Your task to perform on an android device: Where can I buy a nice beach towel? Image 0: 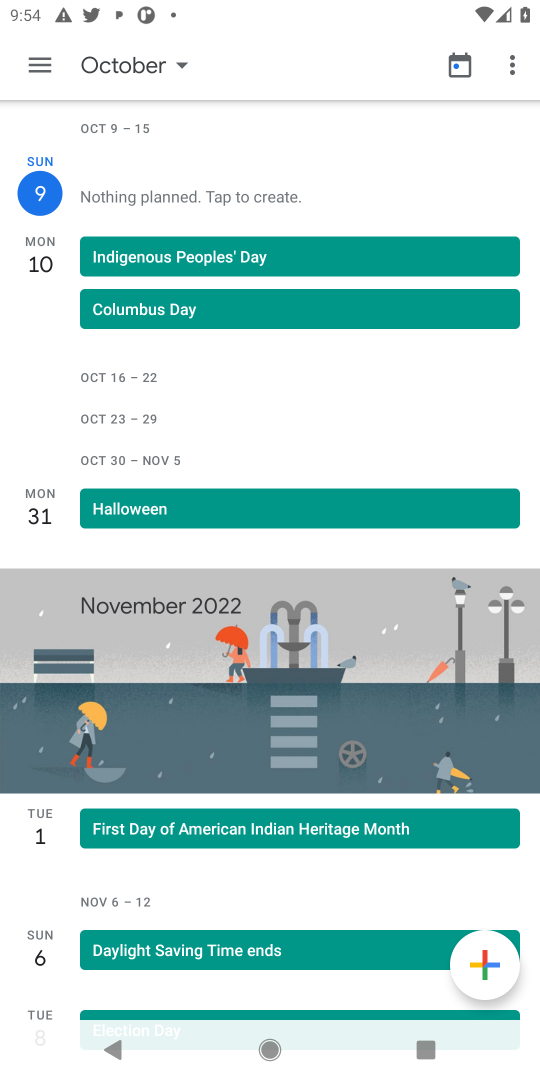
Step 0: press home button
Your task to perform on an android device: Where can I buy a nice beach towel? Image 1: 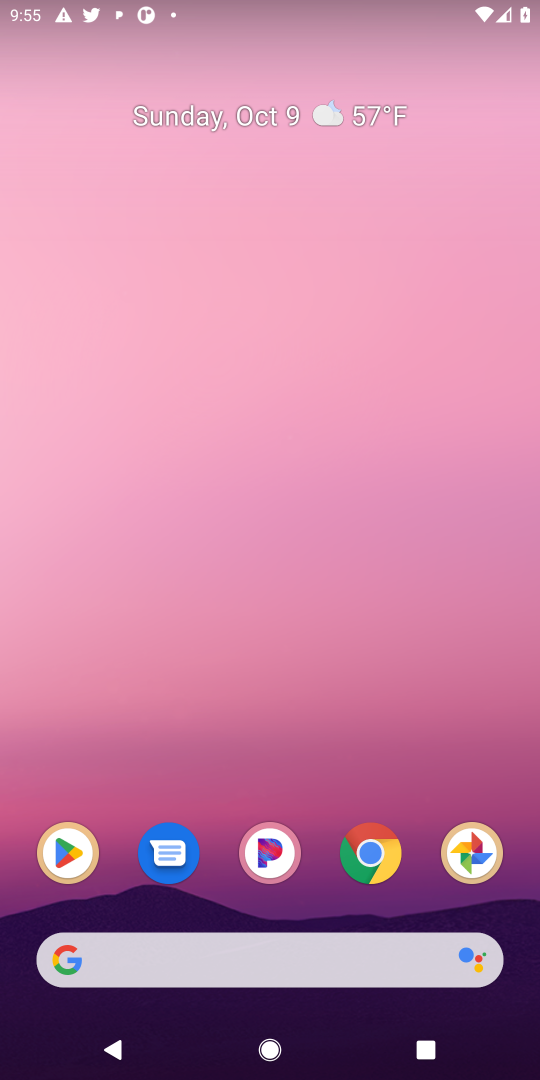
Step 1: type "Where can I buy a nice beach towel?"
Your task to perform on an android device: Where can I buy a nice beach towel? Image 2: 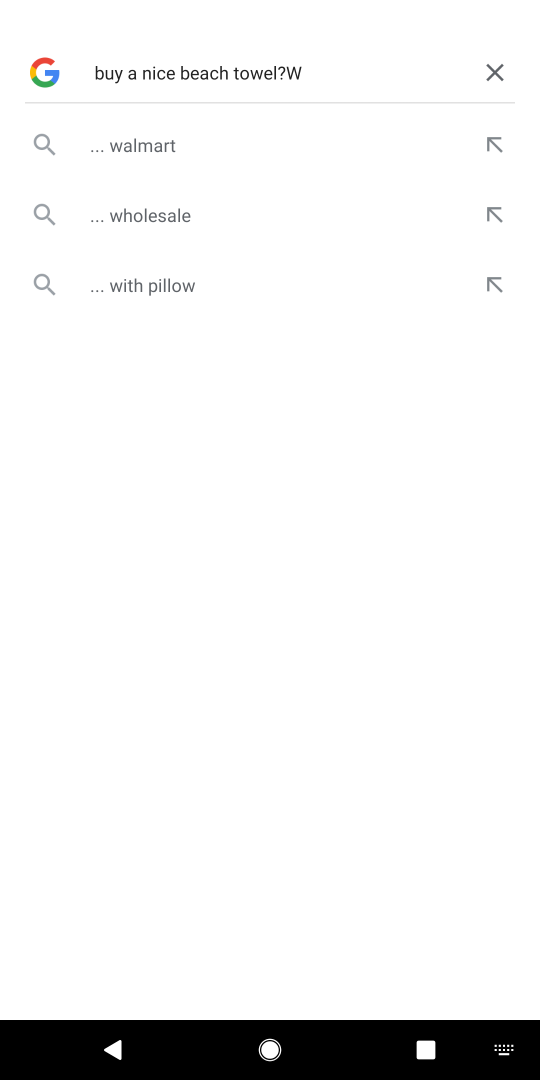
Step 2: type ""
Your task to perform on an android device: Where can I buy a nice beach towel? Image 3: 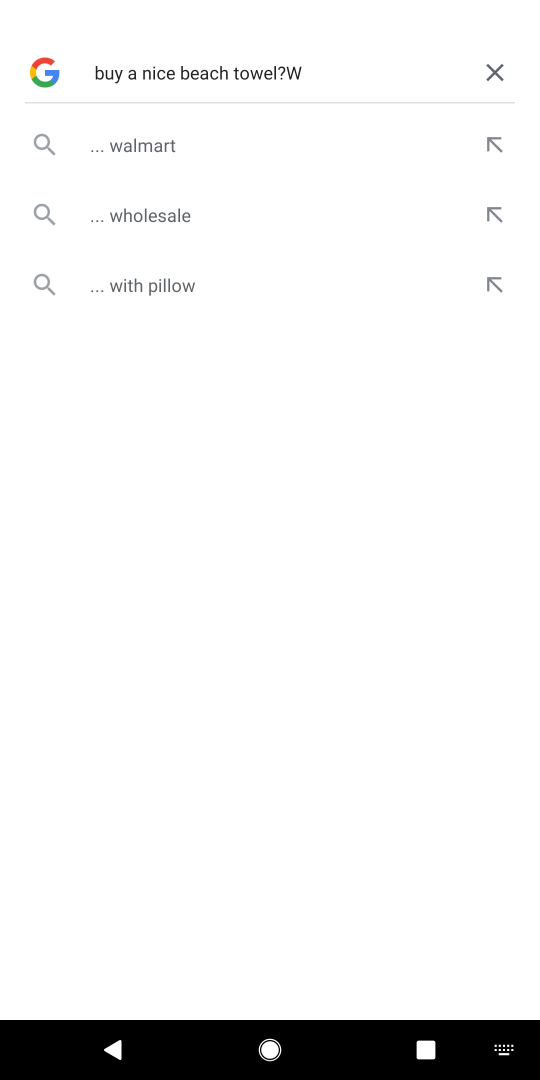
Step 3: press enter
Your task to perform on an android device: Where can I buy a nice beach towel? Image 4: 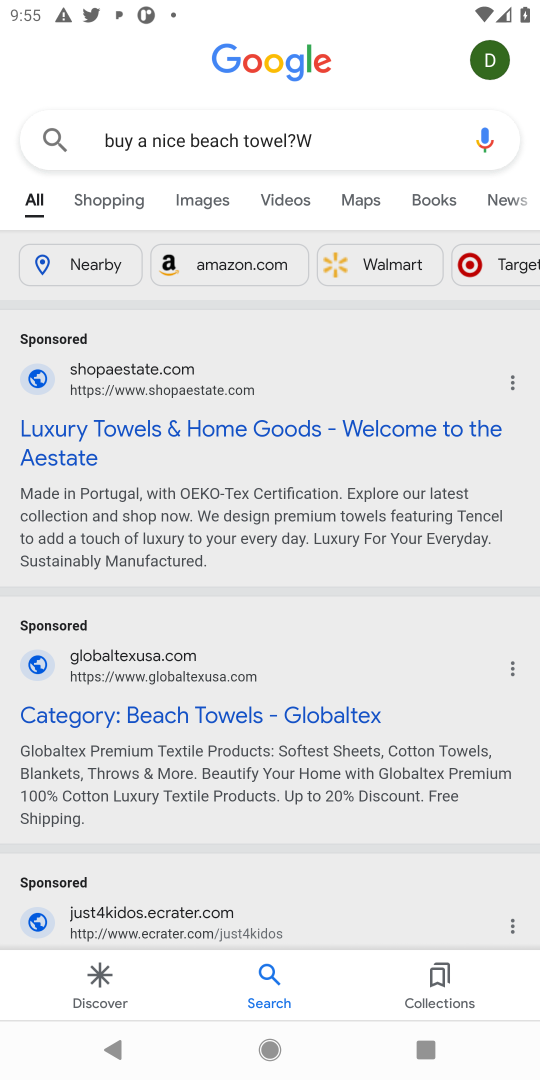
Step 4: drag from (235, 831) to (269, 295)
Your task to perform on an android device: Where can I buy a nice beach towel? Image 5: 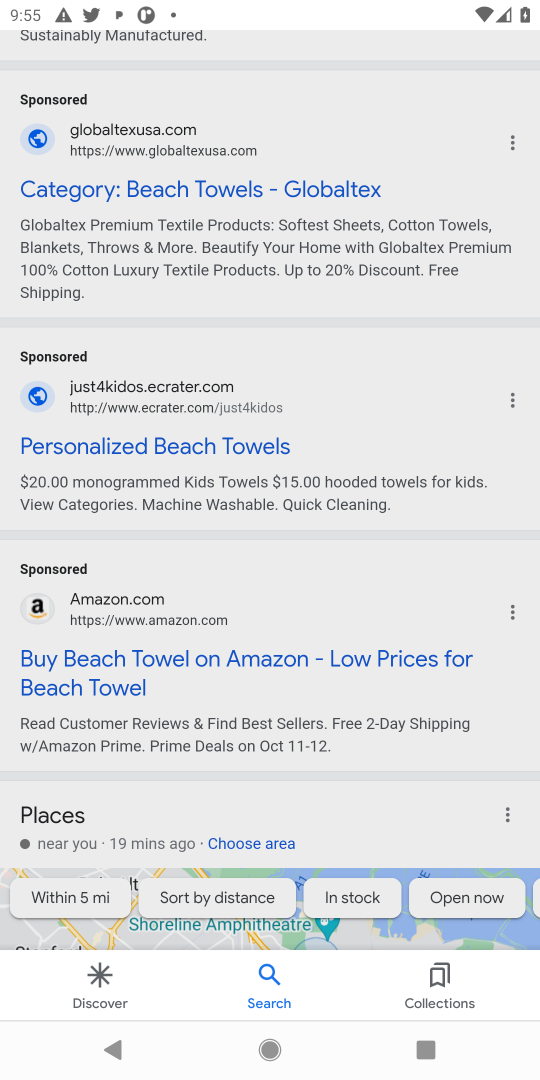
Step 5: drag from (363, 713) to (359, 267)
Your task to perform on an android device: Where can I buy a nice beach towel? Image 6: 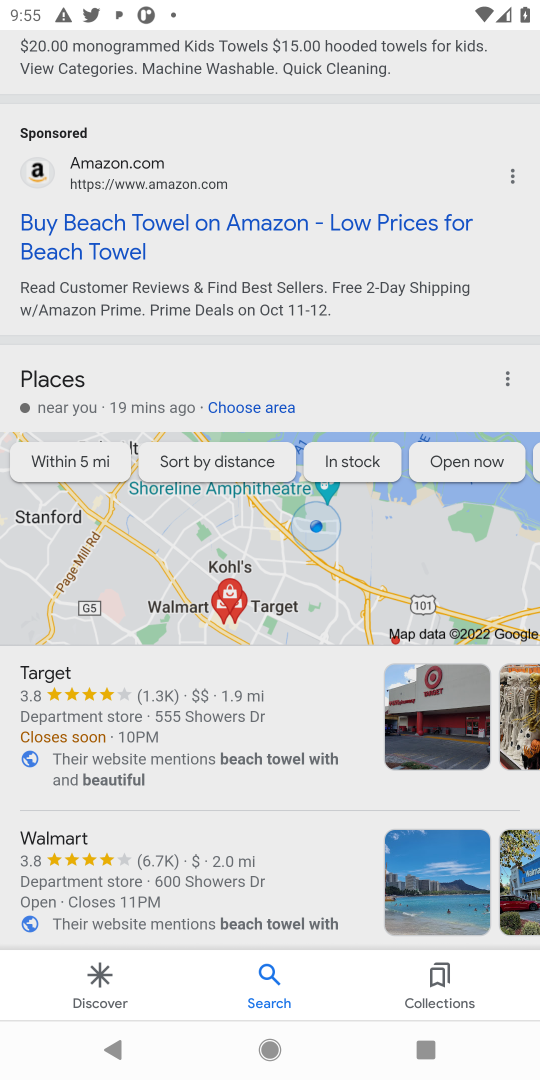
Step 6: type "Where can I buy a nice beach towel?"
Your task to perform on an android device: Where can I buy a nice beach towel? Image 7: 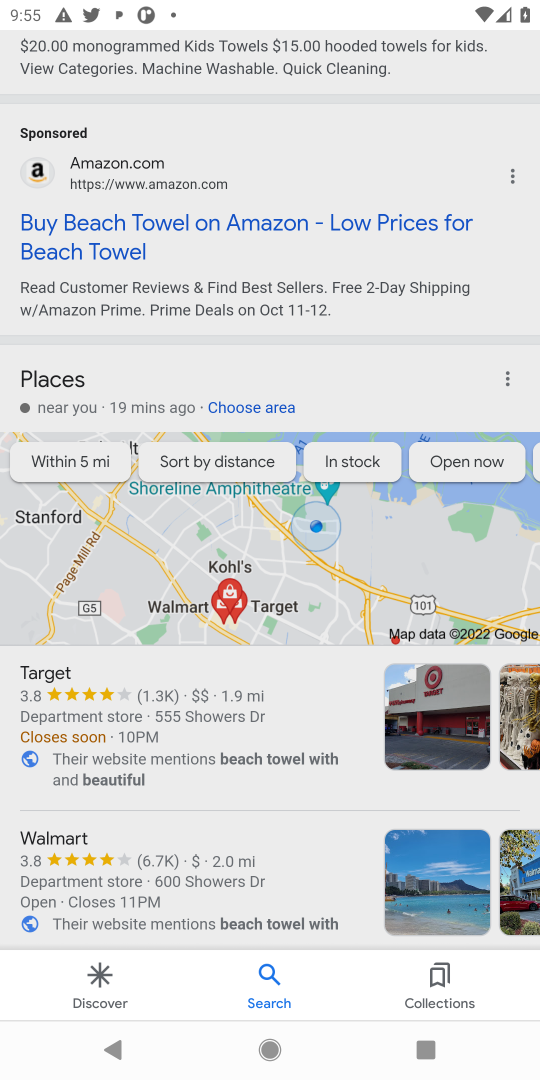
Step 7: drag from (332, 847) to (409, 741)
Your task to perform on an android device: Where can I buy a nice beach towel? Image 8: 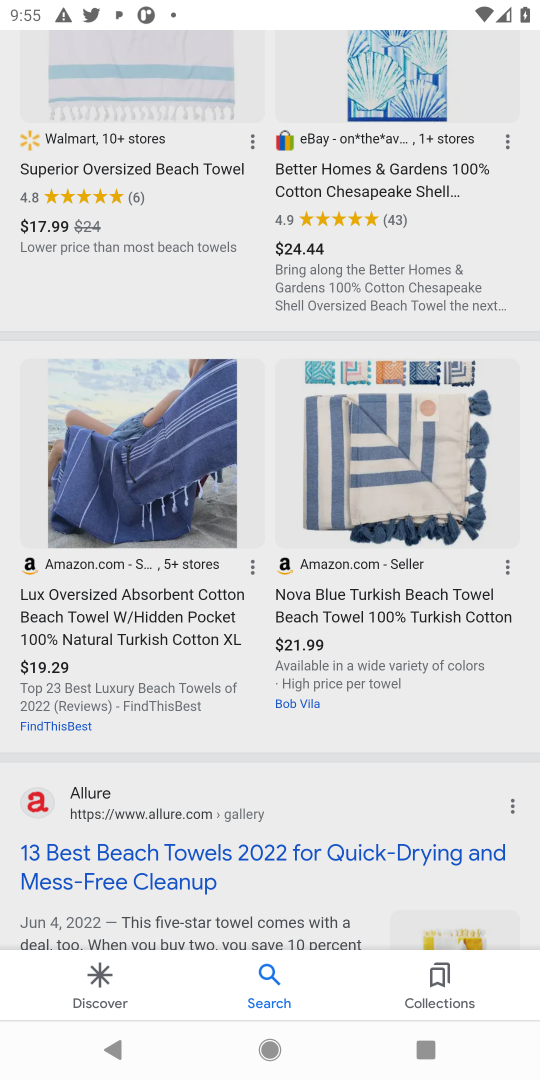
Step 8: drag from (433, 110) to (450, 700)
Your task to perform on an android device: Where can I buy a nice beach towel? Image 9: 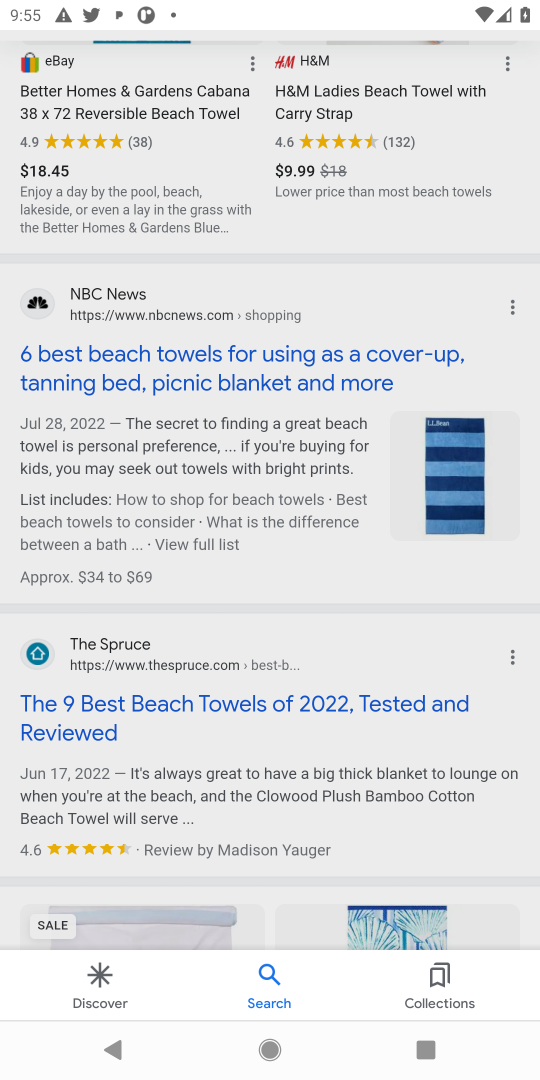
Step 9: drag from (248, 181) to (239, 811)
Your task to perform on an android device: Where can I buy a nice beach towel? Image 10: 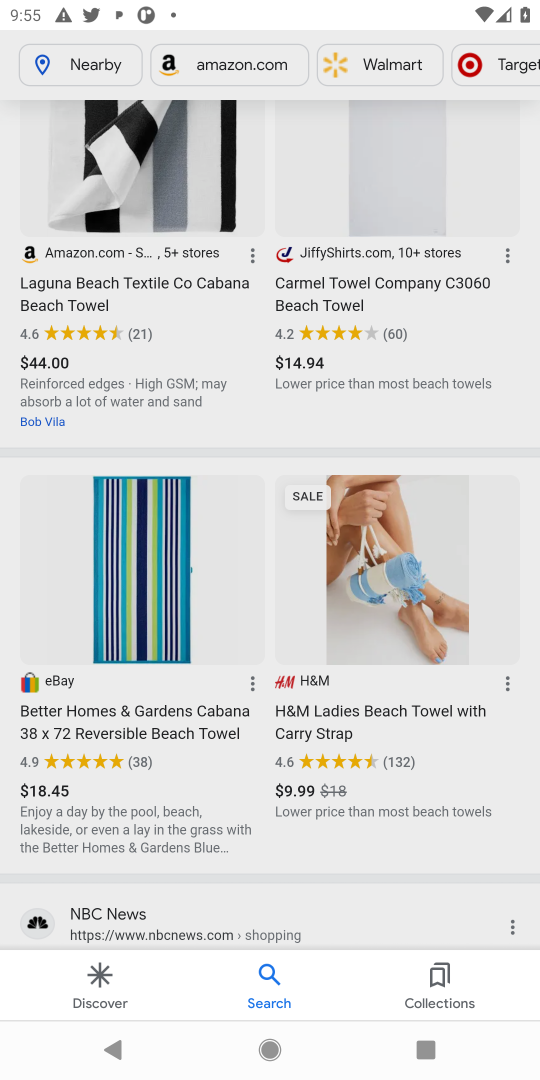
Step 10: drag from (214, 377) to (208, 823)
Your task to perform on an android device: Where can I buy a nice beach towel? Image 11: 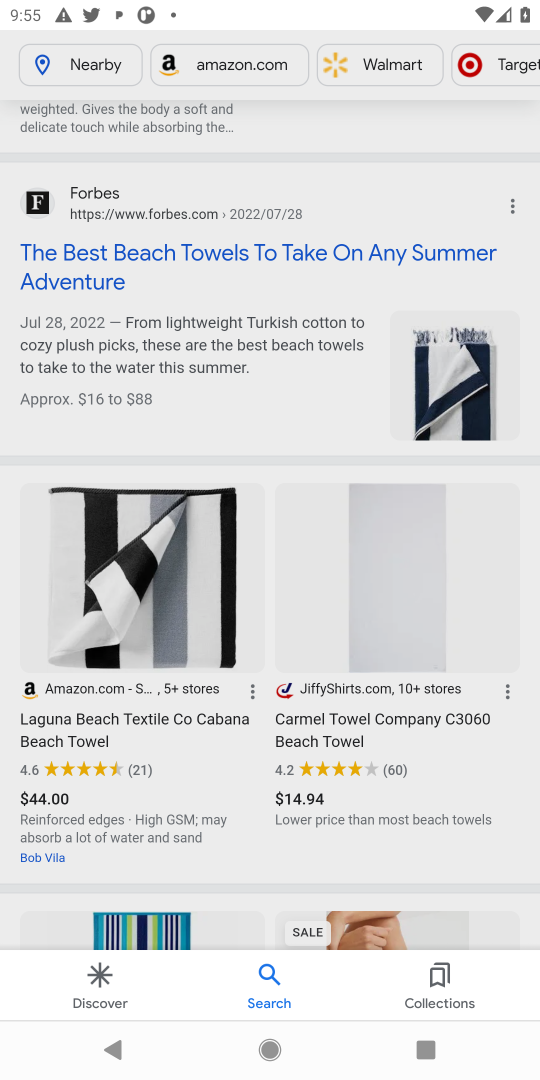
Step 11: drag from (137, 226) to (140, 824)
Your task to perform on an android device: Where can I buy a nice beach towel? Image 12: 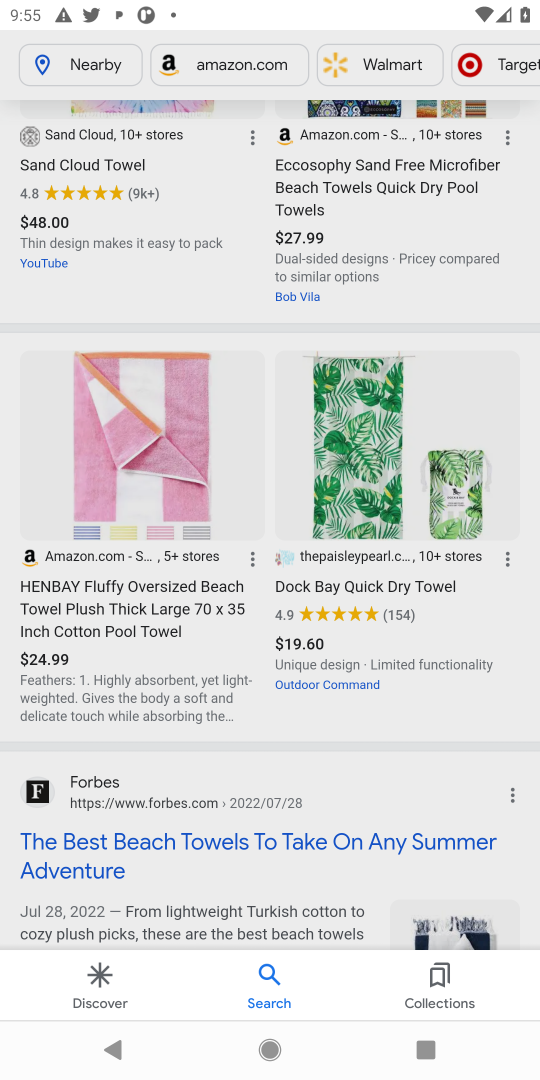
Step 12: drag from (102, 232) to (81, 593)
Your task to perform on an android device: Where can I buy a nice beach towel? Image 13: 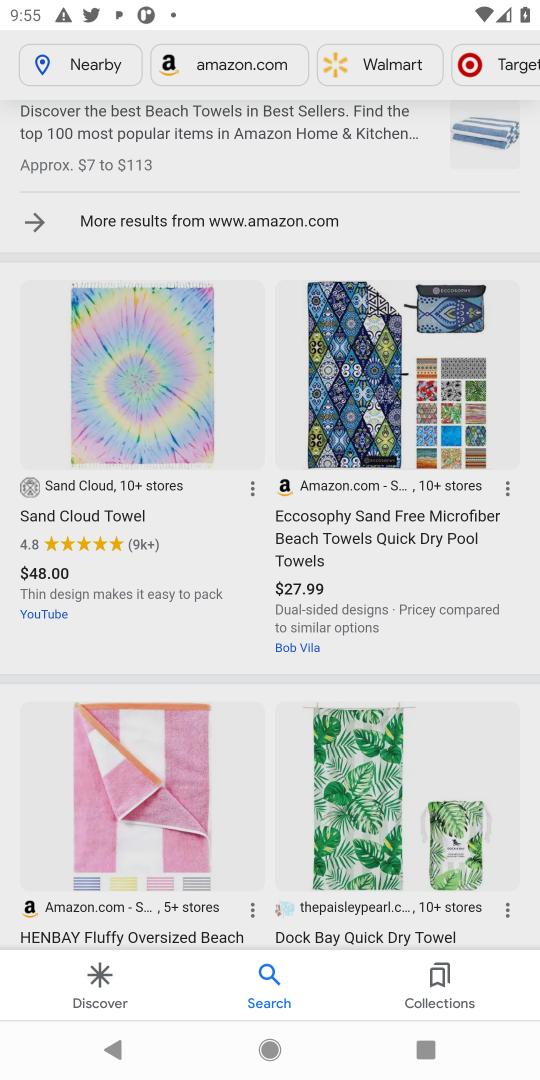
Step 13: drag from (93, 334) to (134, 718)
Your task to perform on an android device: Where can I buy a nice beach towel? Image 14: 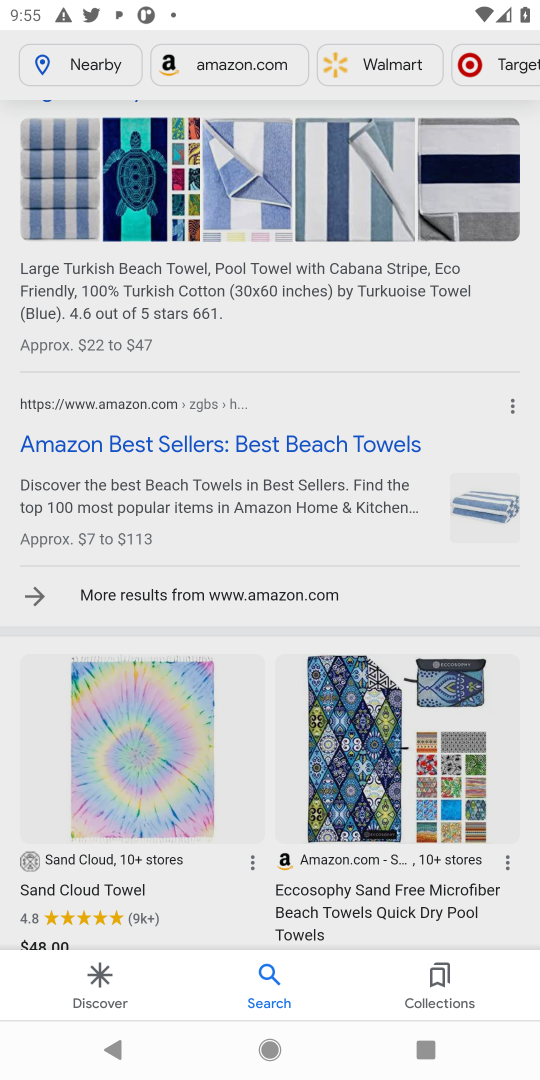
Step 14: click (111, 440)
Your task to perform on an android device: Where can I buy a nice beach towel? Image 15: 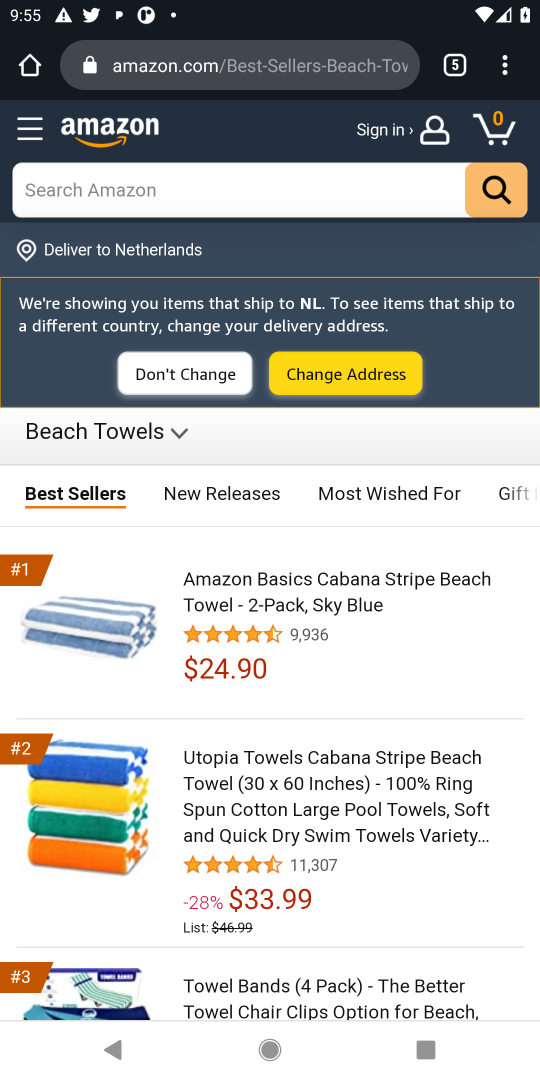
Step 15: drag from (295, 639) to (328, 257)
Your task to perform on an android device: Where can I buy a nice beach towel? Image 16: 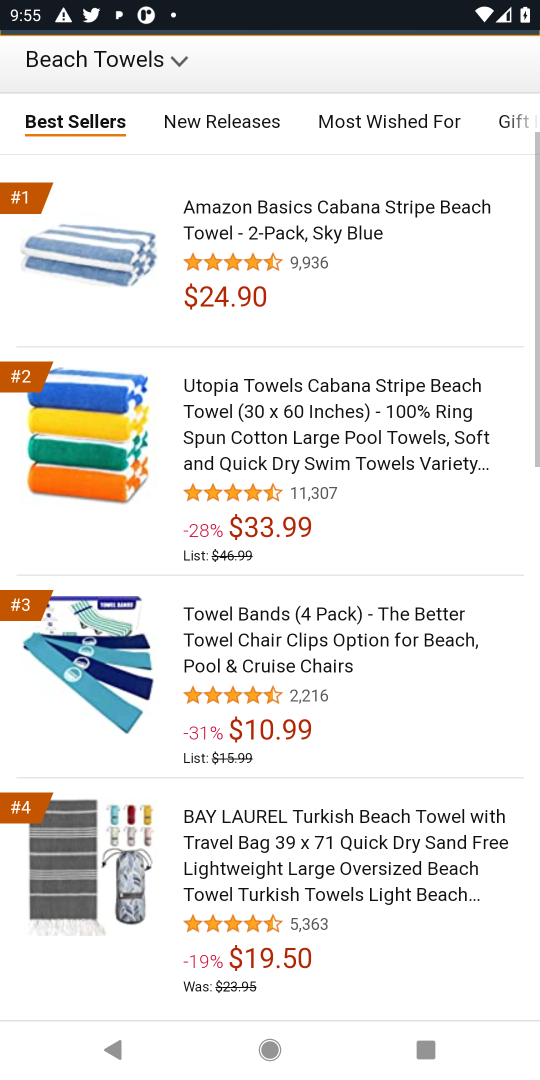
Step 16: drag from (328, 251) to (320, 677)
Your task to perform on an android device: Where can I buy a nice beach towel? Image 17: 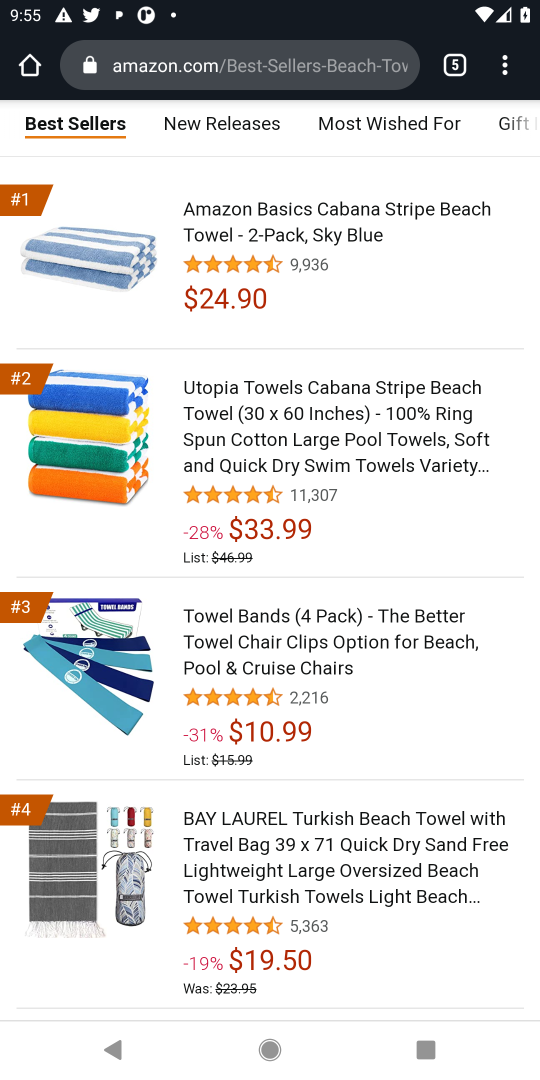
Step 17: drag from (306, 761) to (282, 267)
Your task to perform on an android device: Where can I buy a nice beach towel? Image 18: 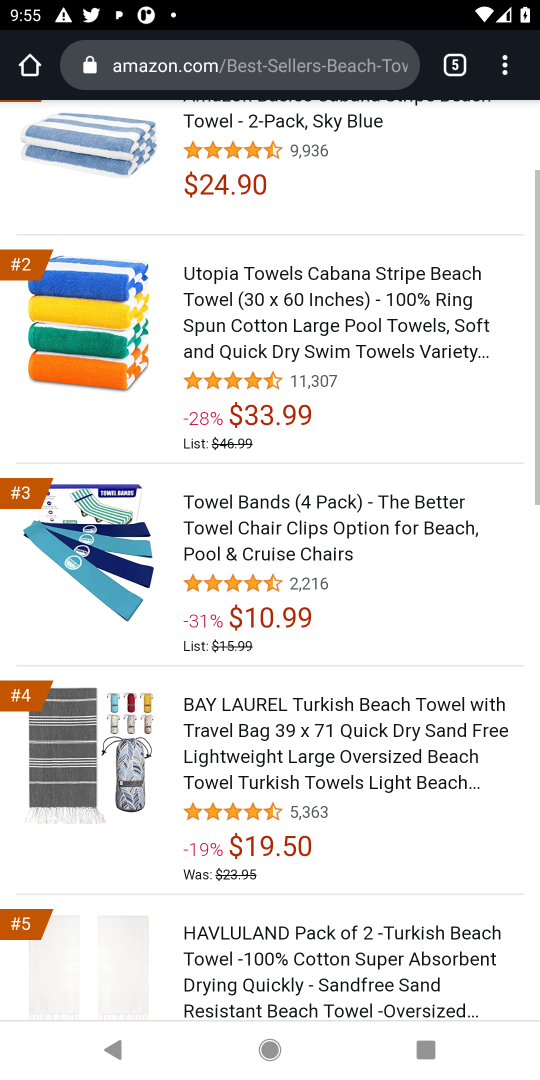
Step 18: drag from (291, 875) to (300, 460)
Your task to perform on an android device: Where can I buy a nice beach towel? Image 19: 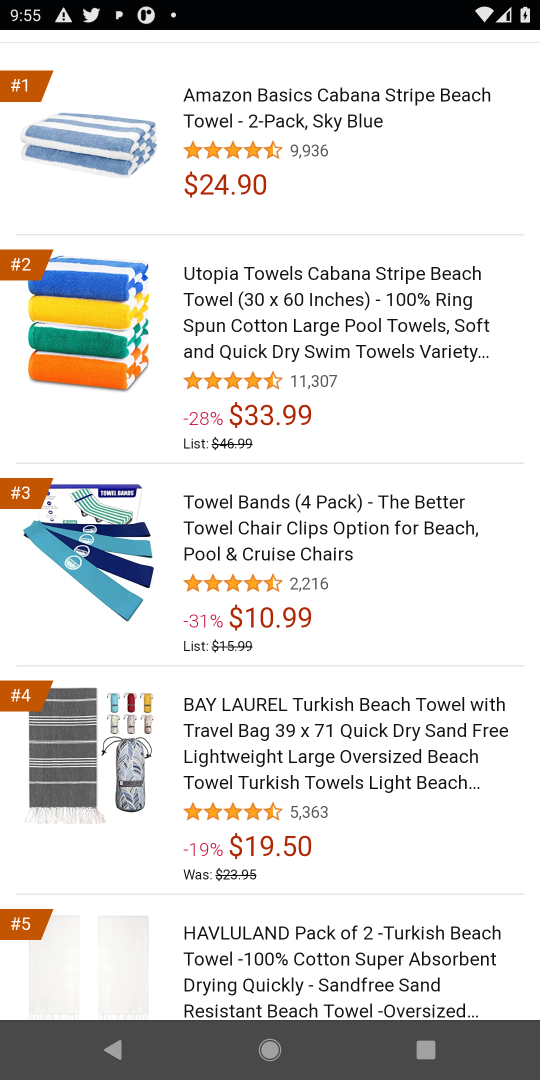
Step 19: drag from (350, 886) to (324, 290)
Your task to perform on an android device: Where can I buy a nice beach towel? Image 20: 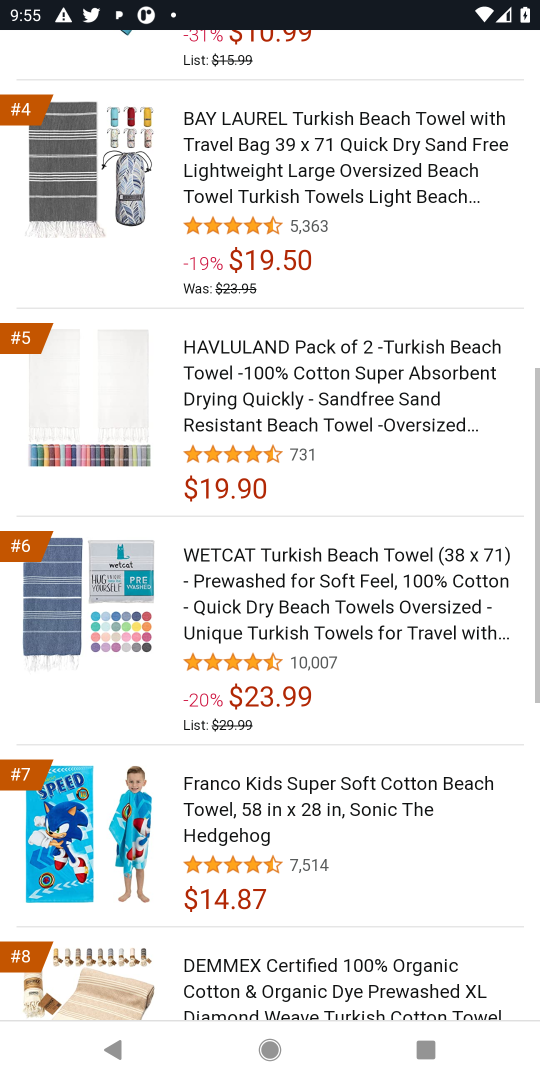
Step 20: drag from (285, 896) to (261, 439)
Your task to perform on an android device: Where can I buy a nice beach towel? Image 21: 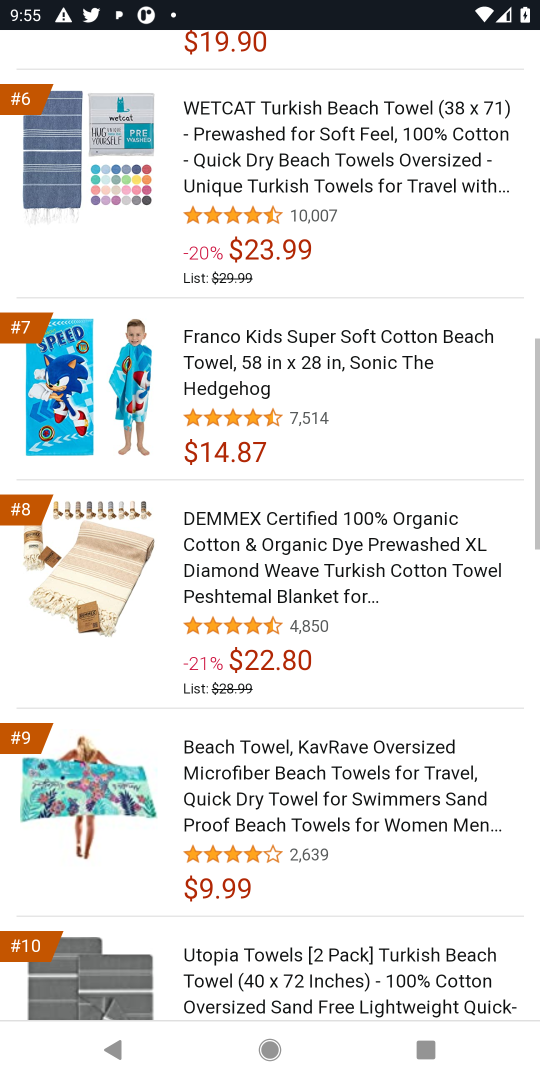
Step 21: drag from (302, 888) to (274, 360)
Your task to perform on an android device: Where can I buy a nice beach towel? Image 22: 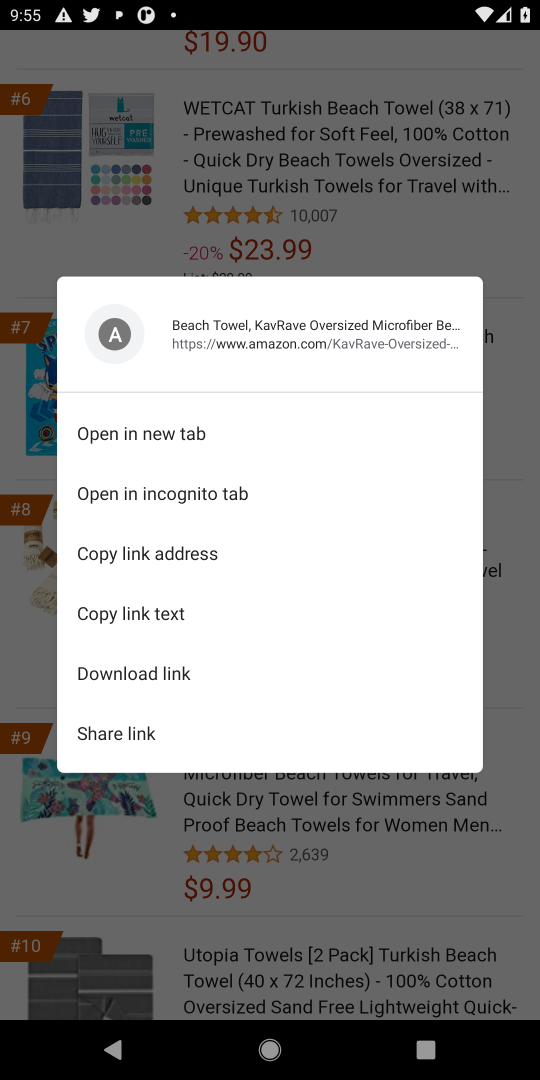
Step 22: click (295, 904)
Your task to perform on an android device: Where can I buy a nice beach towel? Image 23: 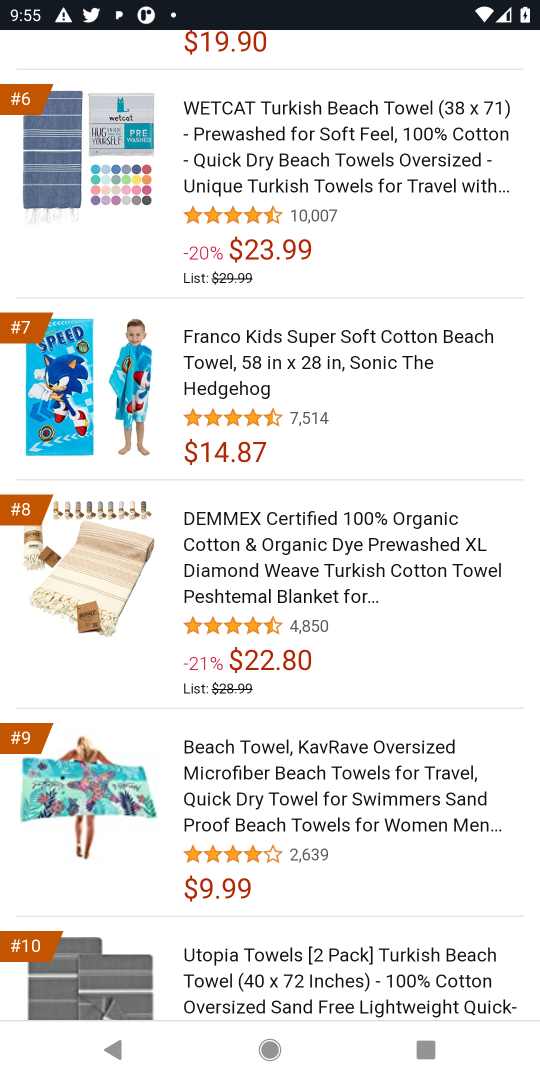
Step 23: drag from (292, 895) to (345, 268)
Your task to perform on an android device: Where can I buy a nice beach towel? Image 24: 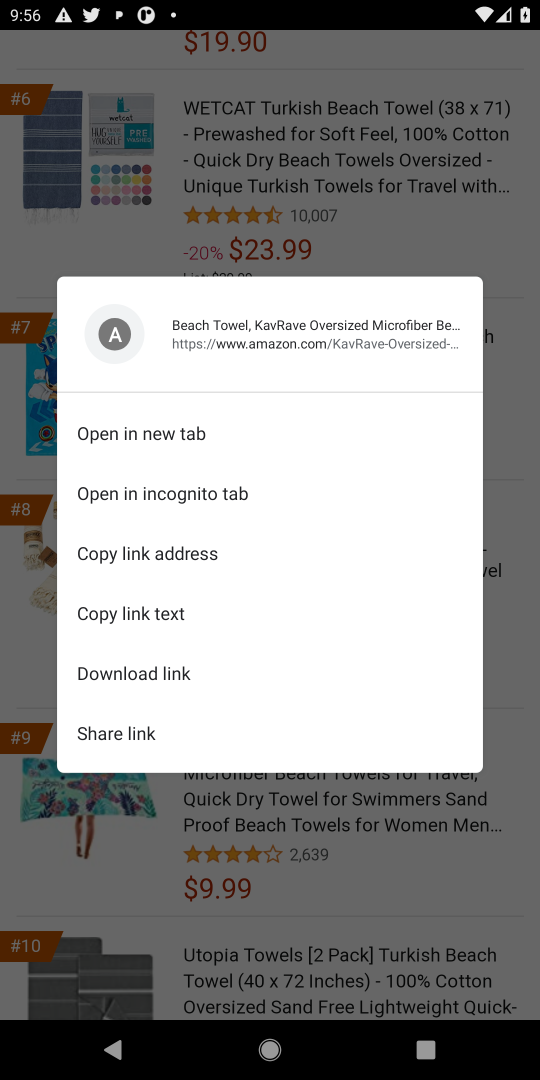
Step 24: press back button
Your task to perform on an android device: Where can I buy a nice beach towel? Image 25: 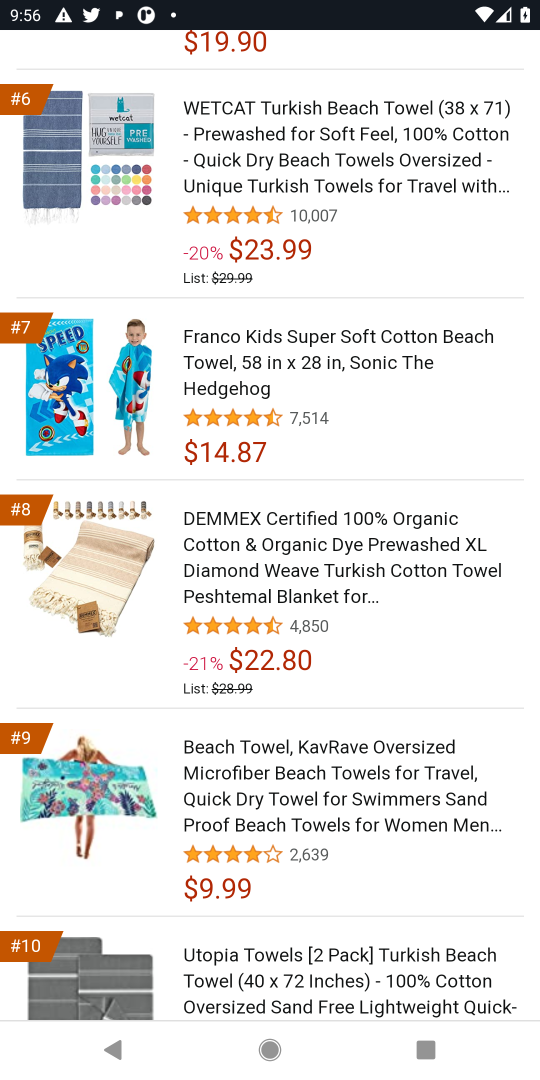
Step 25: press back button
Your task to perform on an android device: Where can I buy a nice beach towel? Image 26: 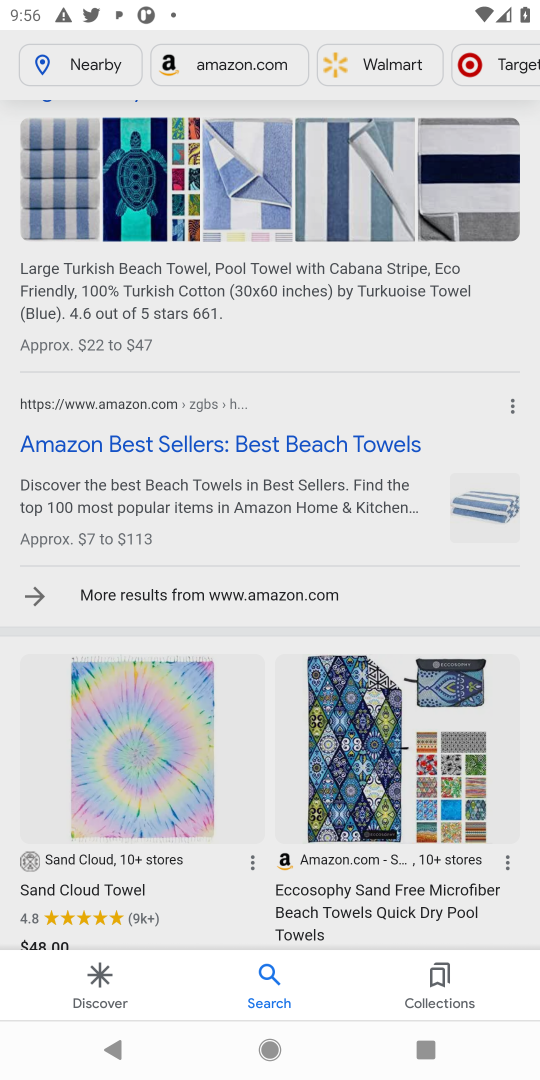
Step 26: drag from (280, 258) to (347, 731)
Your task to perform on an android device: Where can I buy a nice beach towel? Image 27: 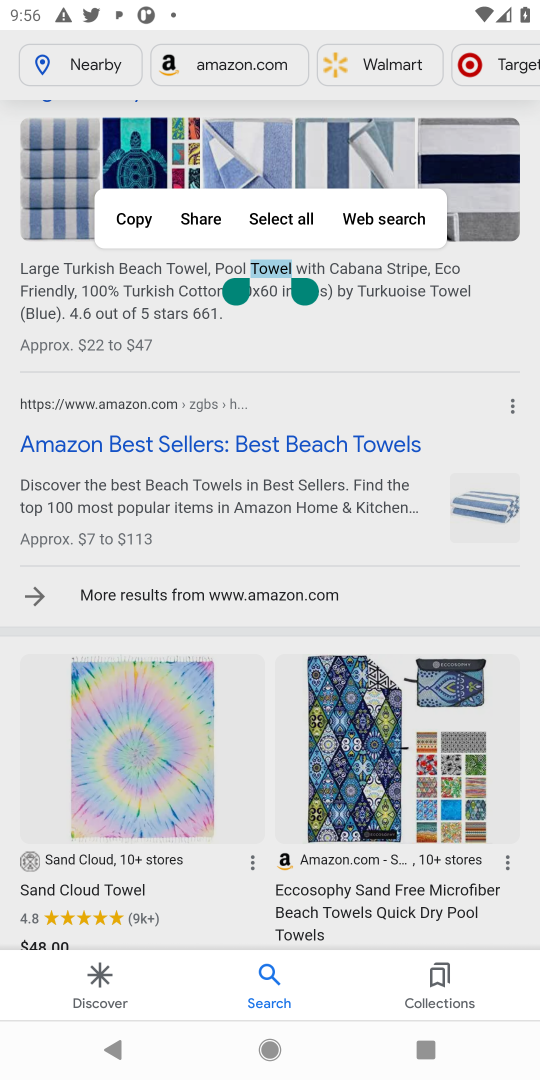
Step 27: click (411, 482)
Your task to perform on an android device: Where can I buy a nice beach towel? Image 28: 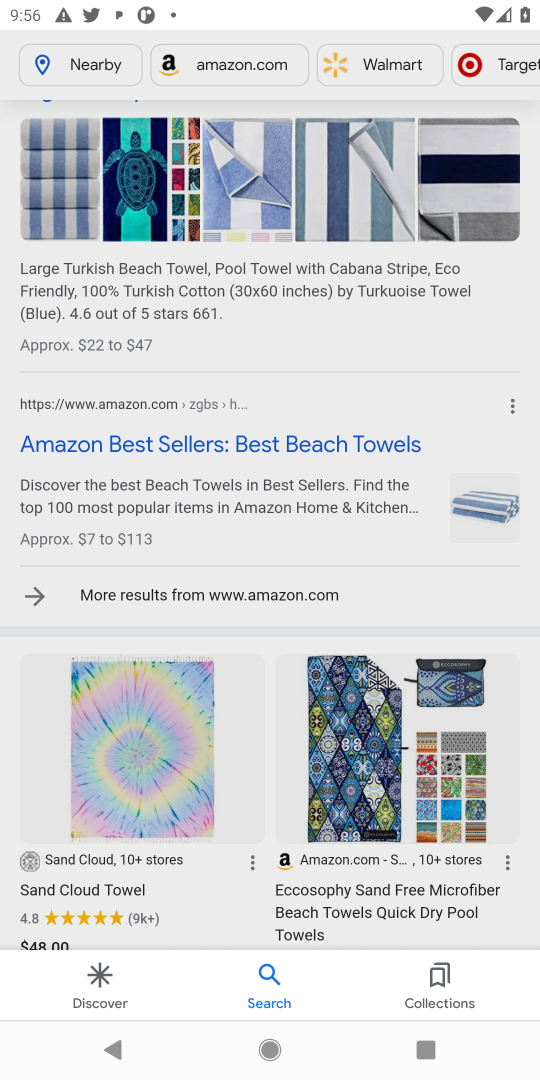
Step 28: drag from (465, 206) to (408, 292)
Your task to perform on an android device: Where can I buy a nice beach towel? Image 29: 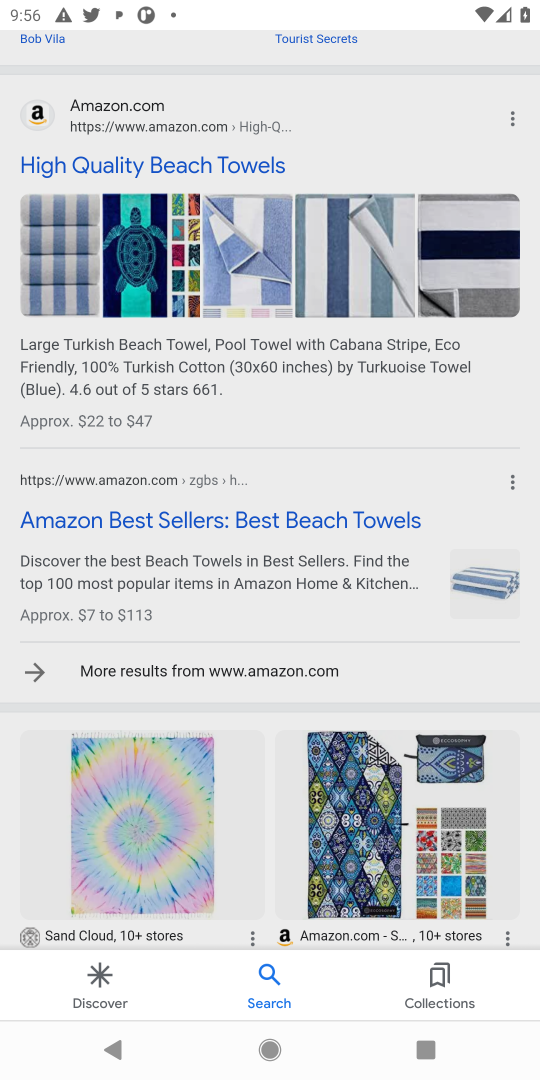
Step 29: drag from (336, 812) to (354, 192)
Your task to perform on an android device: Where can I buy a nice beach towel? Image 30: 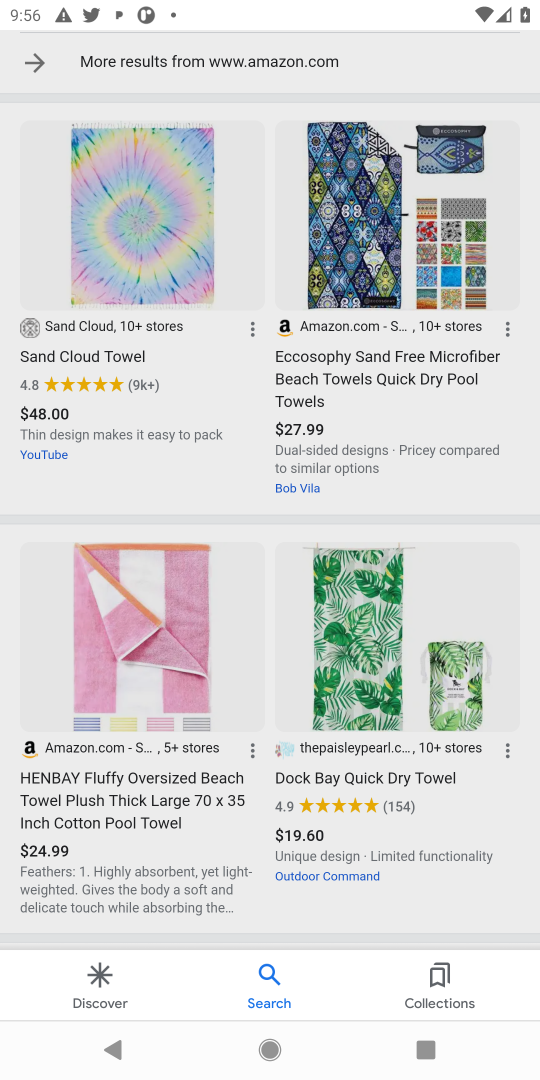
Step 30: drag from (292, 819) to (330, 280)
Your task to perform on an android device: Where can I buy a nice beach towel? Image 31: 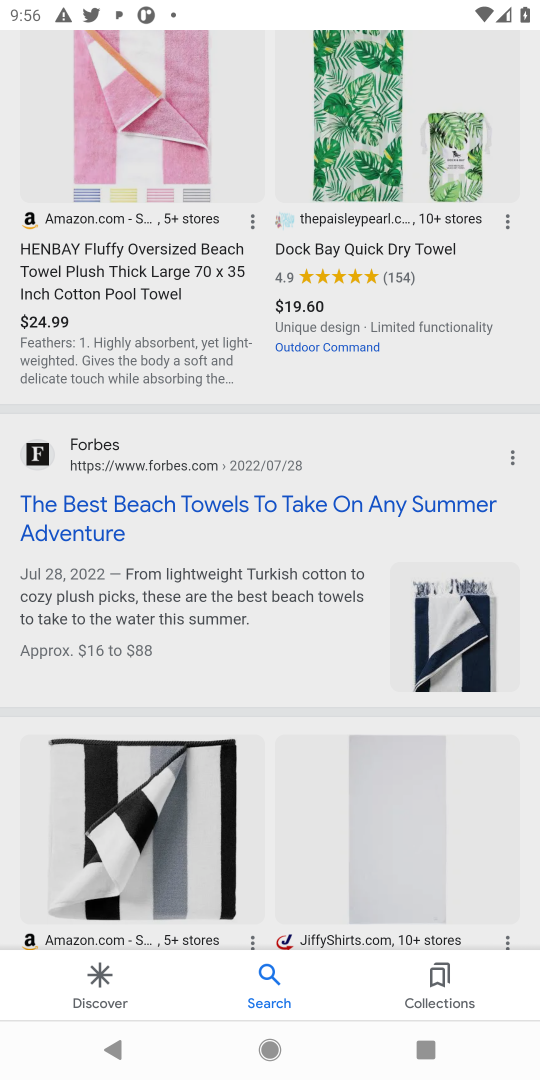
Step 31: drag from (306, 727) to (306, 332)
Your task to perform on an android device: Where can I buy a nice beach towel? Image 32: 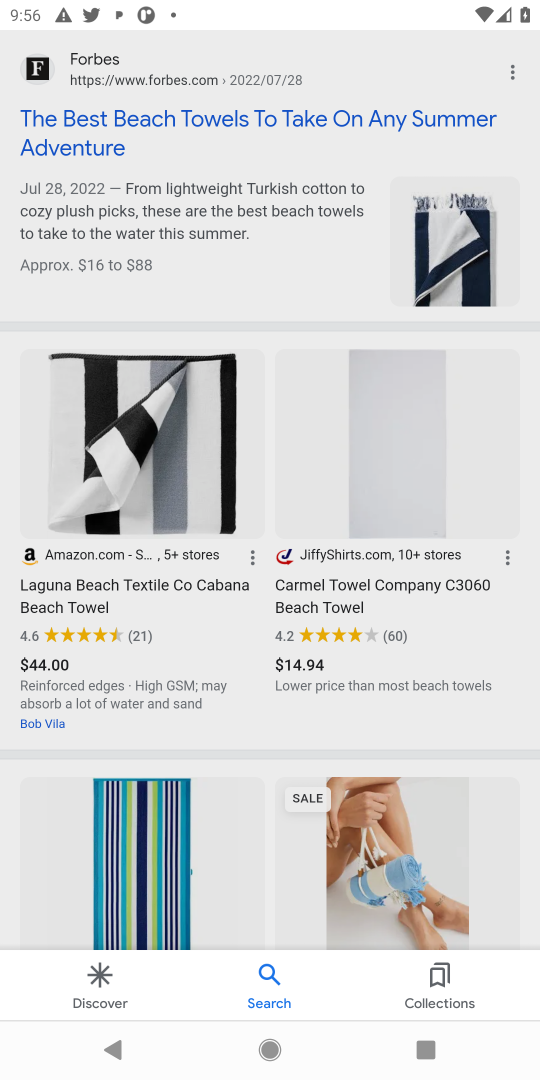
Step 32: drag from (268, 848) to (283, 218)
Your task to perform on an android device: Where can I buy a nice beach towel? Image 33: 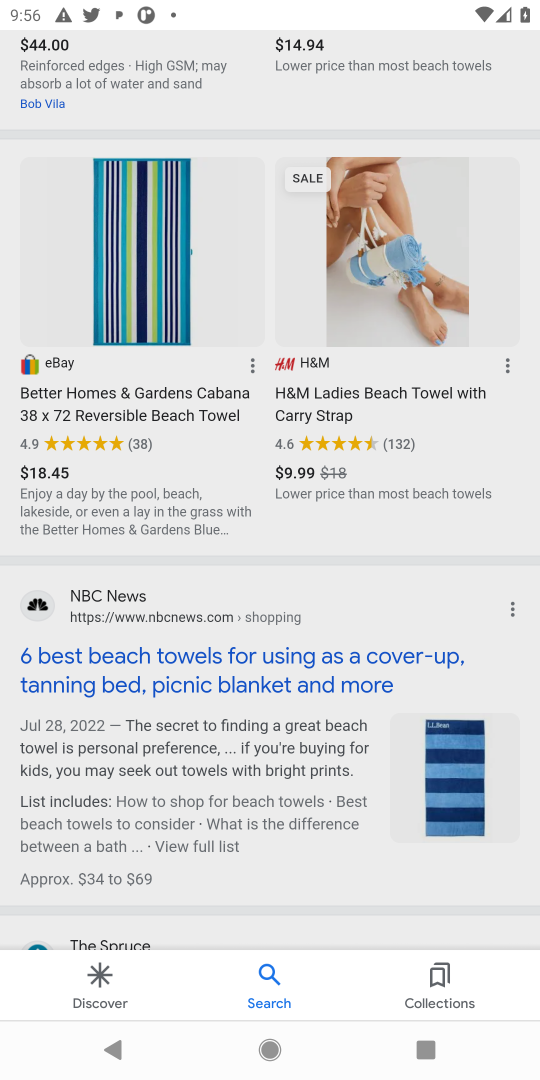
Step 33: drag from (188, 867) to (228, 289)
Your task to perform on an android device: Where can I buy a nice beach towel? Image 34: 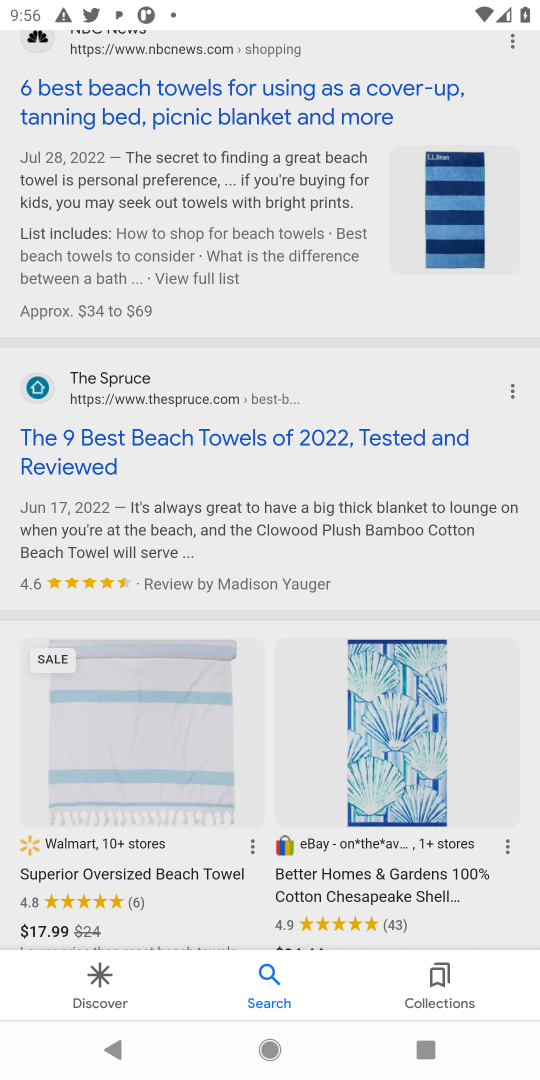
Step 34: drag from (213, 752) to (245, 293)
Your task to perform on an android device: Where can I buy a nice beach towel? Image 35: 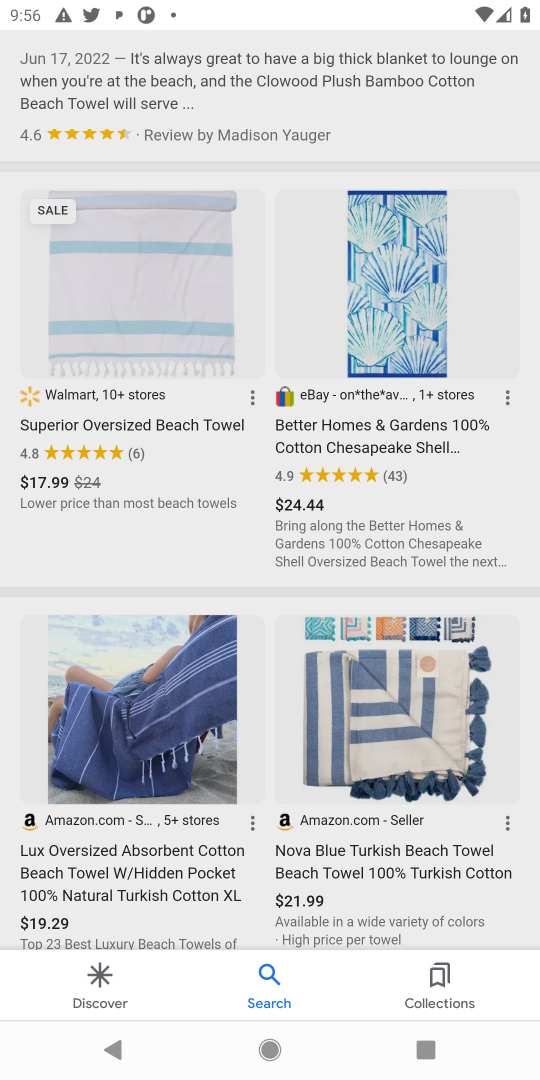
Step 35: click (134, 434)
Your task to perform on an android device: Where can I buy a nice beach towel? Image 36: 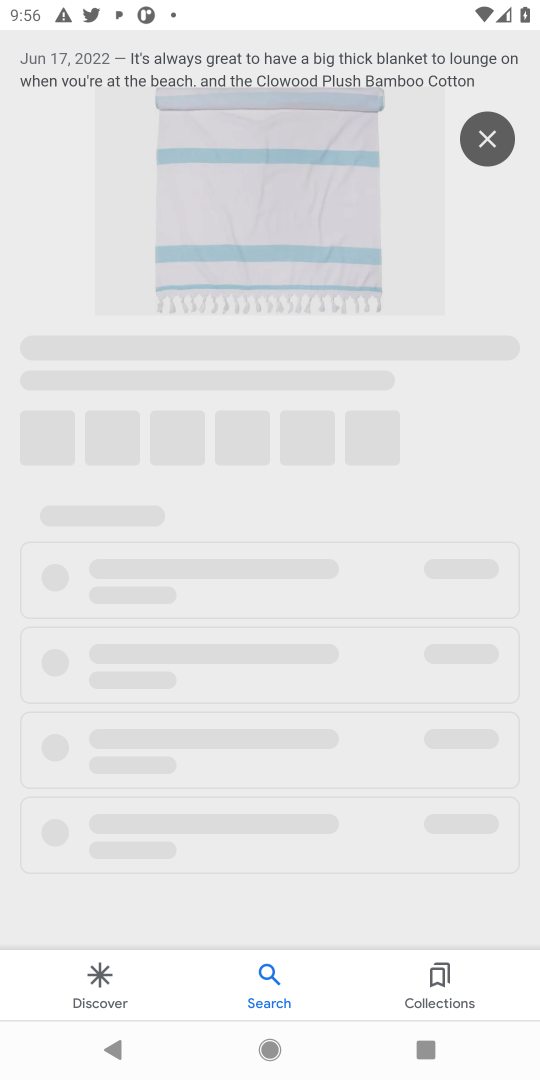
Step 36: click (132, 339)
Your task to perform on an android device: Where can I buy a nice beach towel? Image 37: 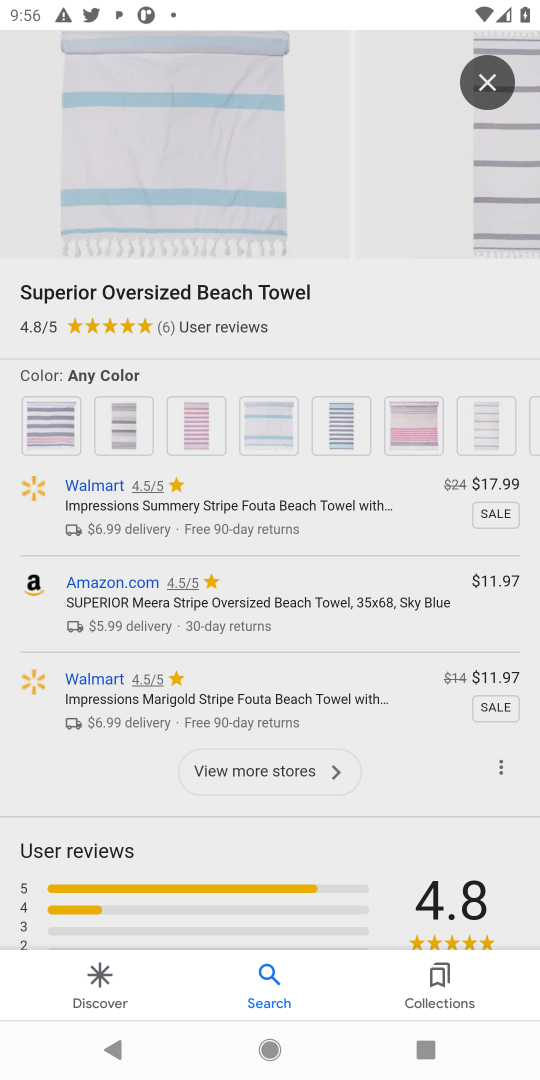
Step 37: drag from (285, 833) to (391, 214)
Your task to perform on an android device: Where can I buy a nice beach towel? Image 38: 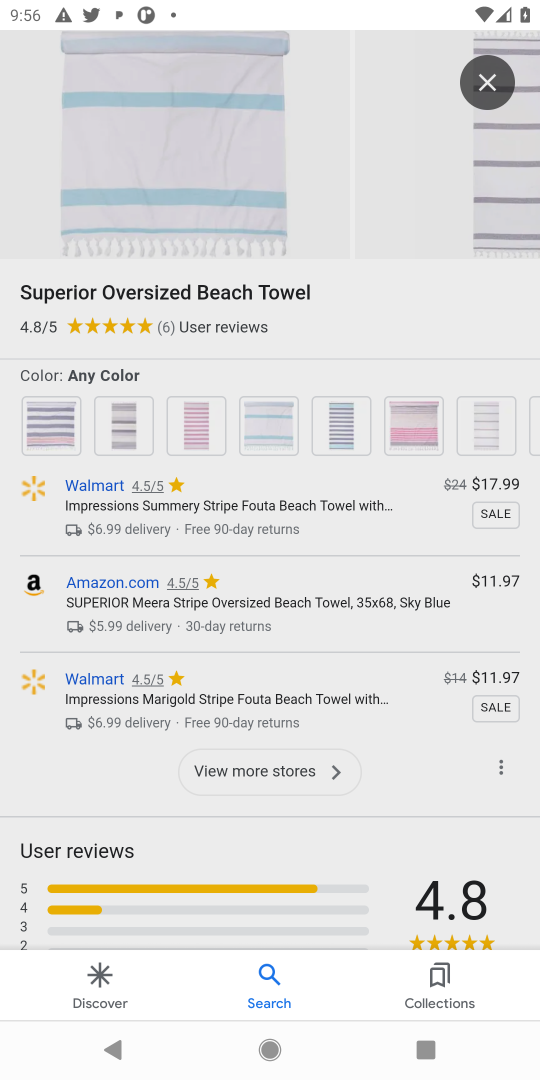
Step 38: drag from (309, 690) to (343, 268)
Your task to perform on an android device: Where can I buy a nice beach towel? Image 39: 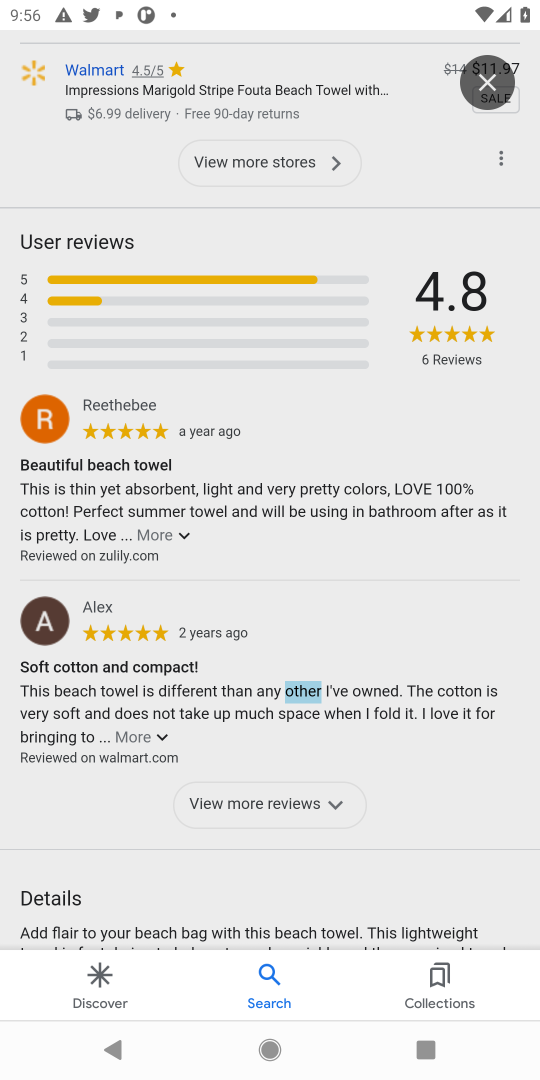
Step 39: drag from (306, 705) to (329, 444)
Your task to perform on an android device: Where can I buy a nice beach towel? Image 40: 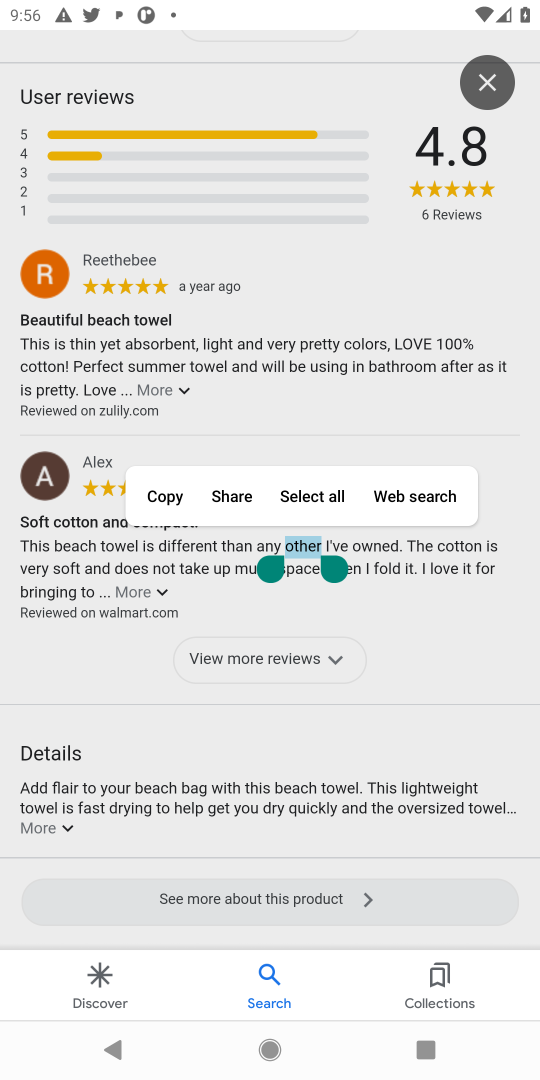
Step 40: drag from (351, 779) to (315, 268)
Your task to perform on an android device: Where can I buy a nice beach towel? Image 41: 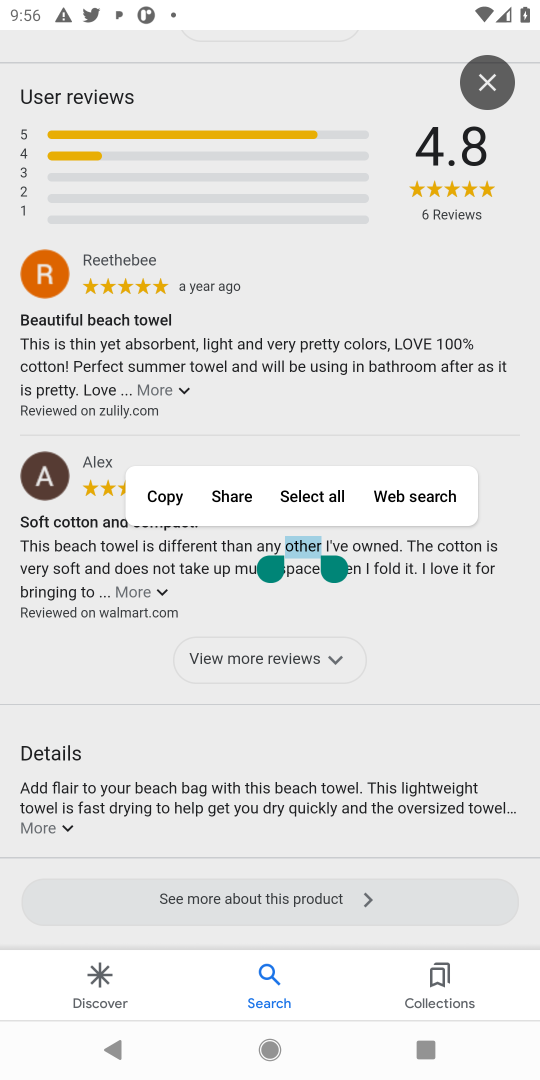
Step 41: drag from (332, 773) to (348, 294)
Your task to perform on an android device: Where can I buy a nice beach towel? Image 42: 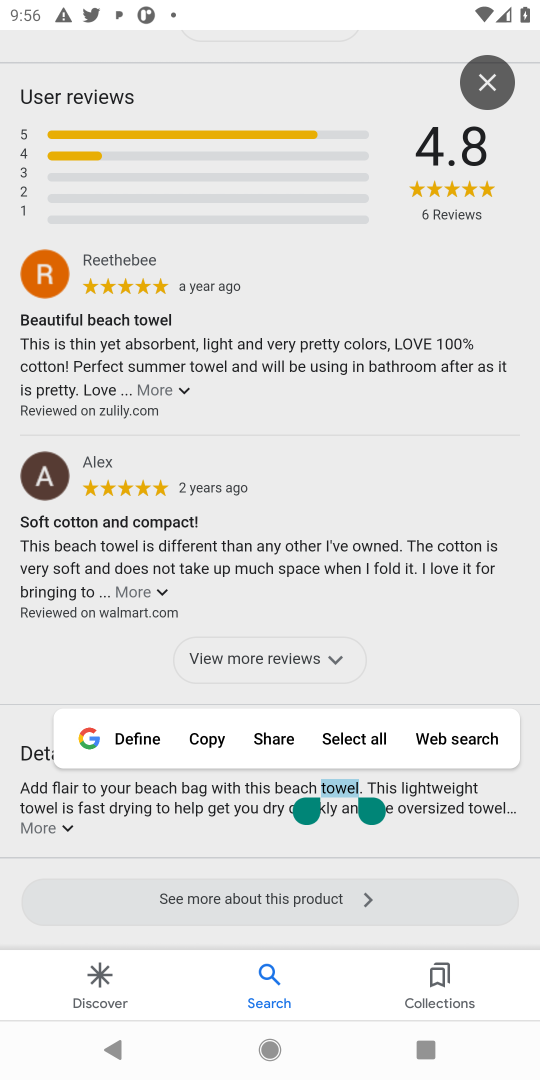
Step 42: press back button
Your task to perform on an android device: Where can I buy a nice beach towel? Image 43: 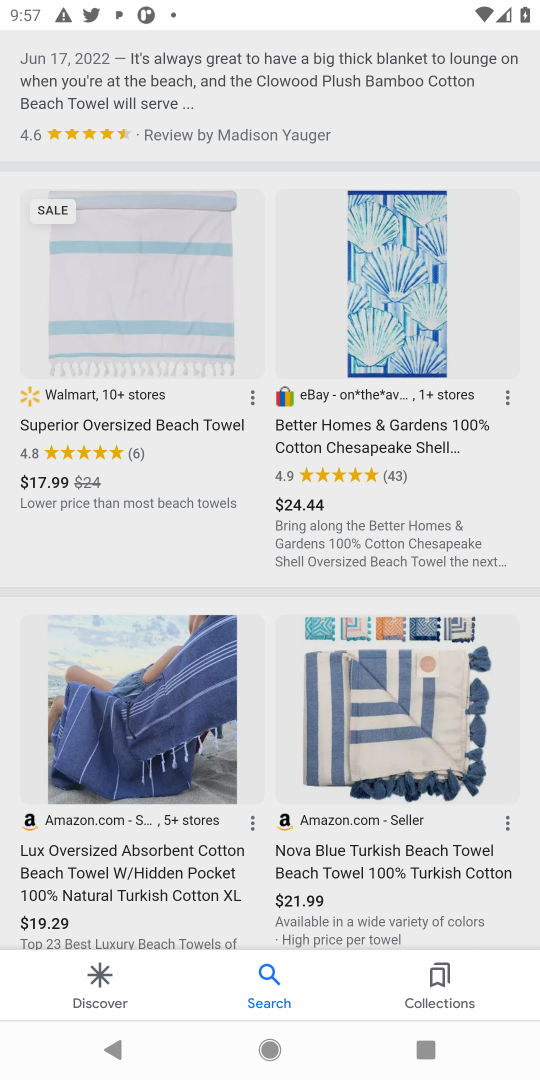
Step 43: drag from (505, 217) to (456, 633)
Your task to perform on an android device: Where can I buy a nice beach towel? Image 44: 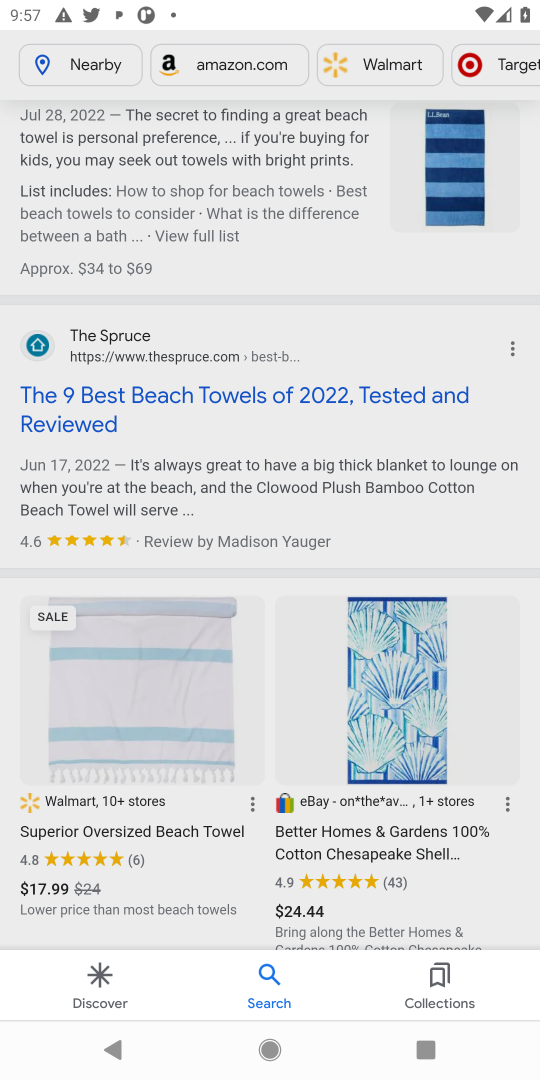
Step 44: drag from (207, 250) to (206, 763)
Your task to perform on an android device: Where can I buy a nice beach towel? Image 45: 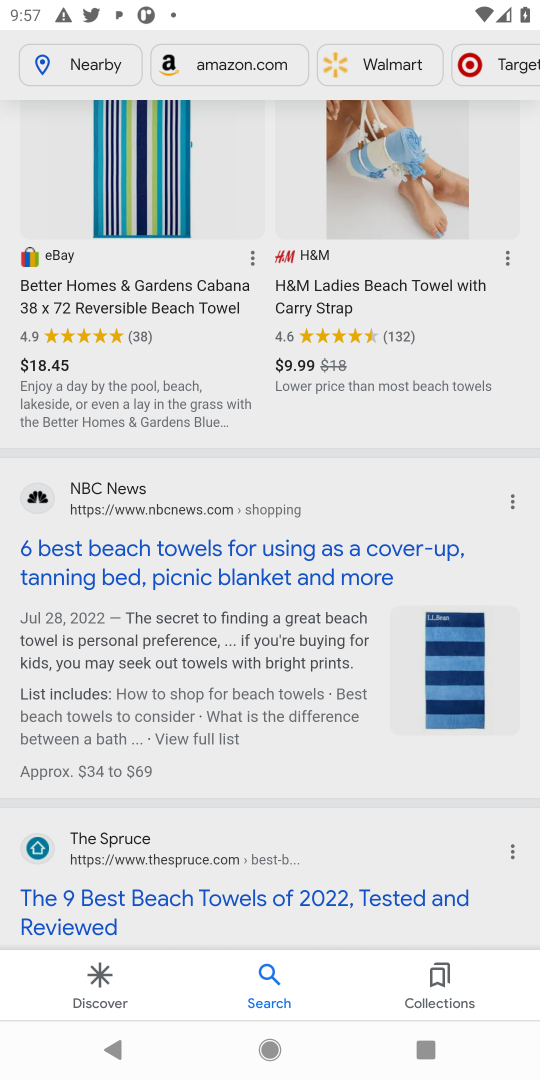
Step 45: drag from (296, 276) to (278, 647)
Your task to perform on an android device: Where can I buy a nice beach towel? Image 46: 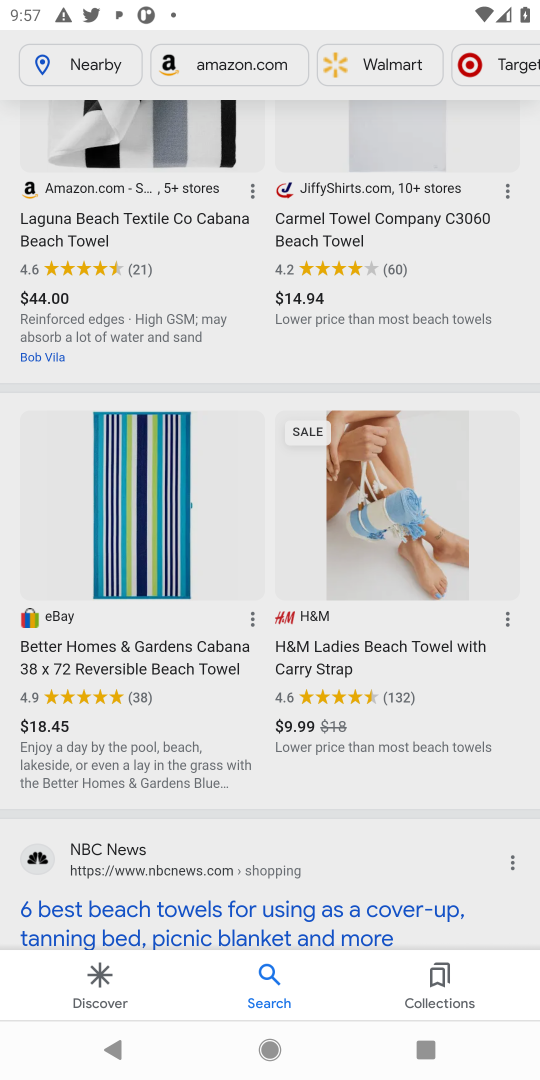
Step 46: drag from (293, 180) to (283, 450)
Your task to perform on an android device: Where can I buy a nice beach towel? Image 47: 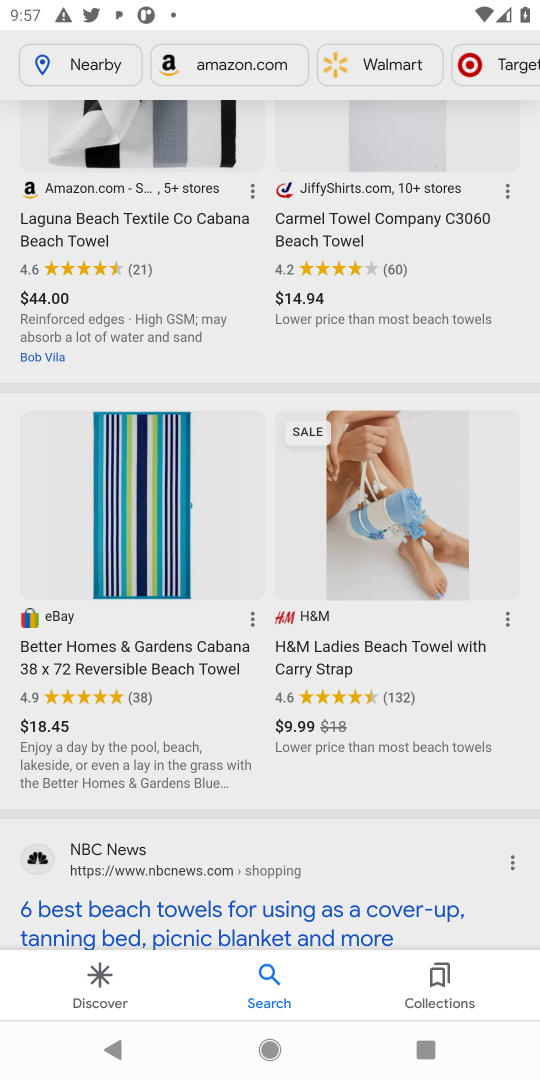
Step 47: drag from (295, 305) to (275, 551)
Your task to perform on an android device: Where can I buy a nice beach towel? Image 48: 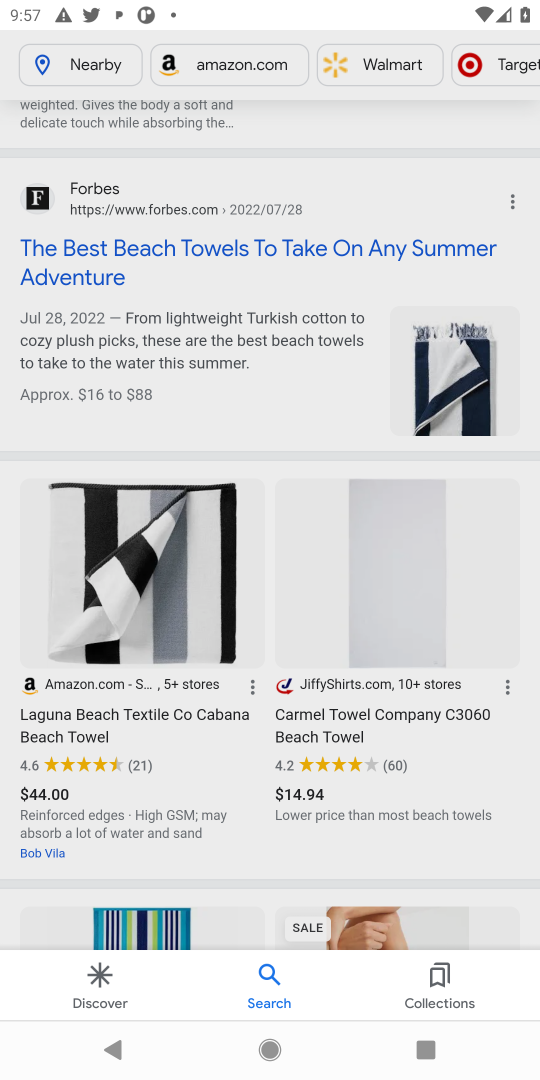
Step 48: click (87, 246)
Your task to perform on an android device: Where can I buy a nice beach towel? Image 49: 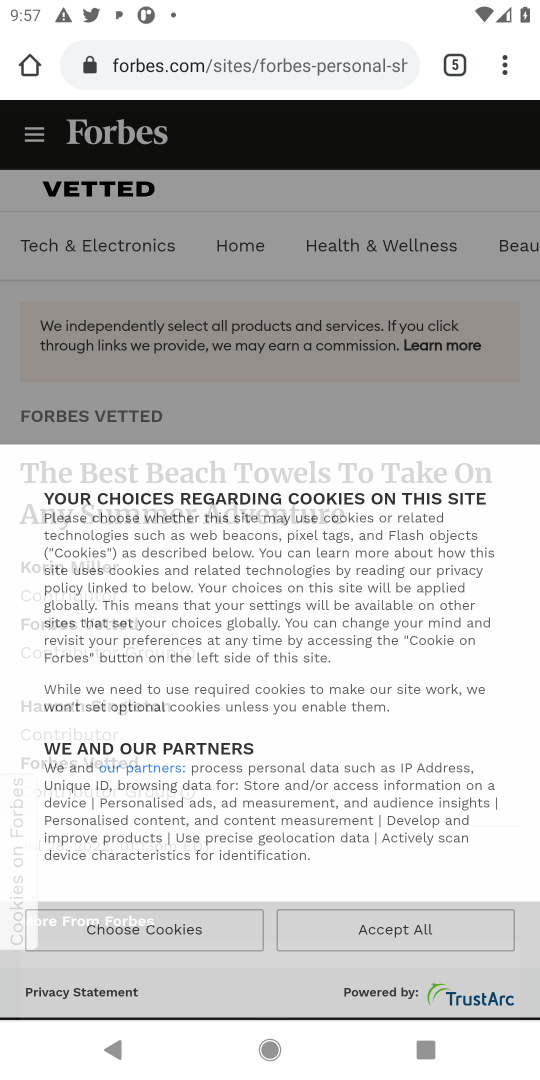
Step 49: drag from (352, 824) to (390, 489)
Your task to perform on an android device: Where can I buy a nice beach towel? Image 50: 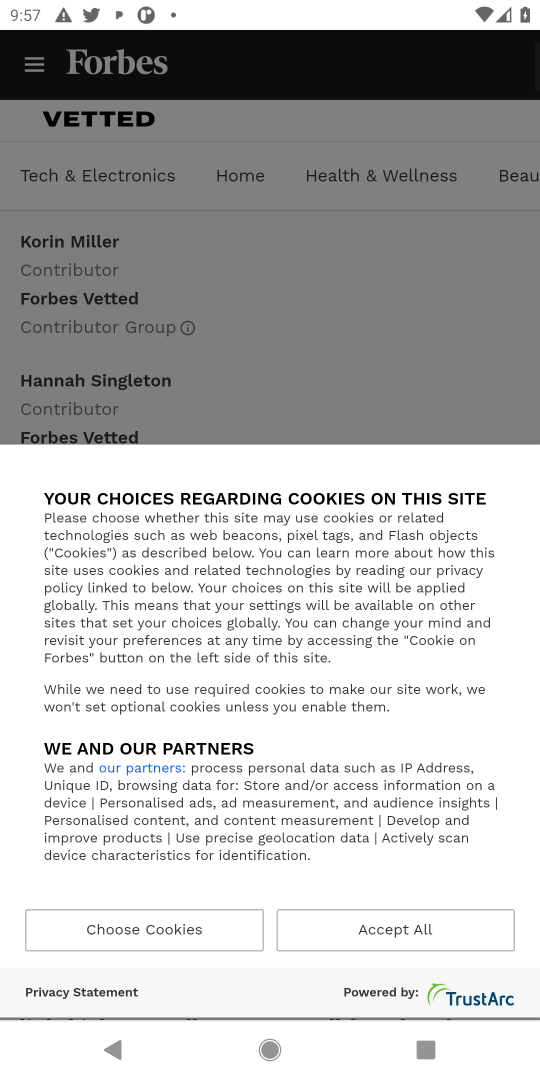
Step 50: click (378, 926)
Your task to perform on an android device: Where can I buy a nice beach towel? Image 51: 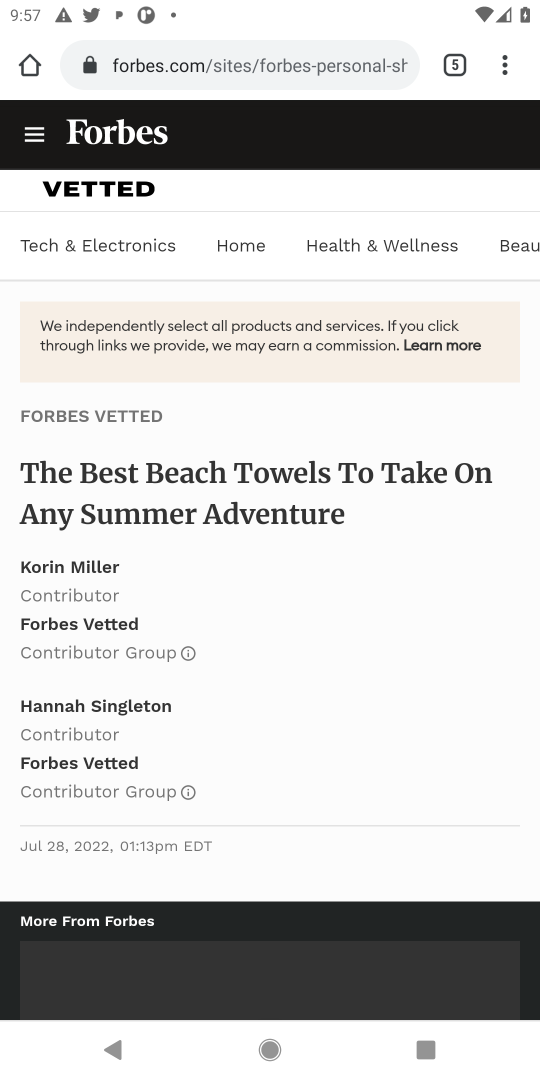
Step 51: drag from (378, 914) to (370, 492)
Your task to perform on an android device: Where can I buy a nice beach towel? Image 52: 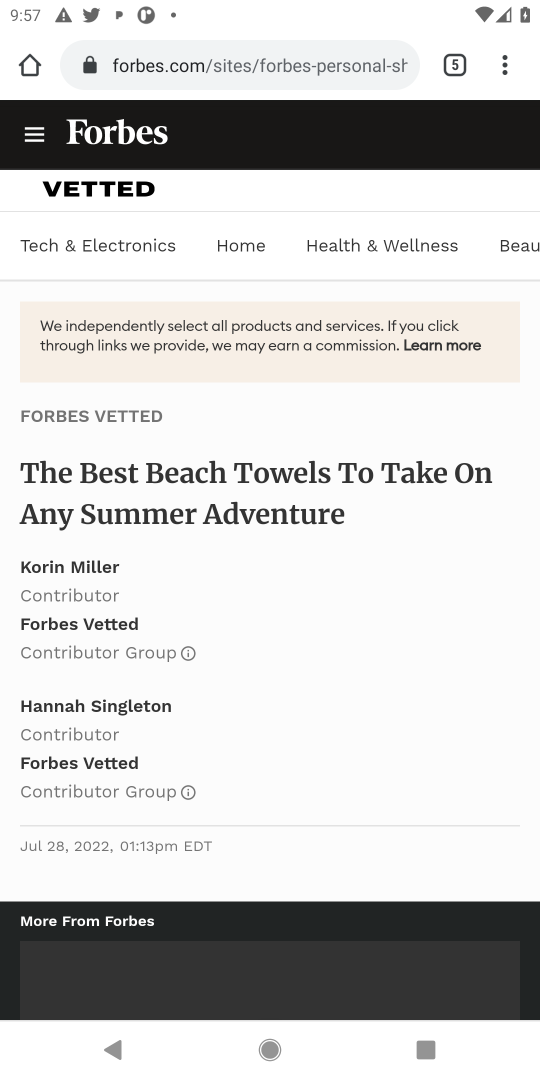
Step 52: drag from (341, 715) to (331, 480)
Your task to perform on an android device: Where can I buy a nice beach towel? Image 53: 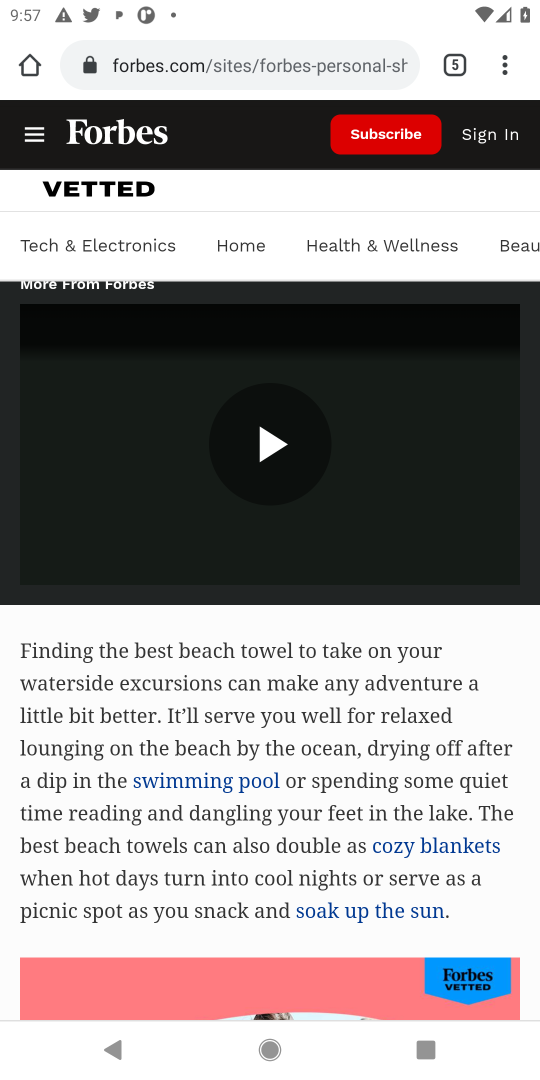
Step 53: drag from (348, 795) to (356, 403)
Your task to perform on an android device: Where can I buy a nice beach towel? Image 54: 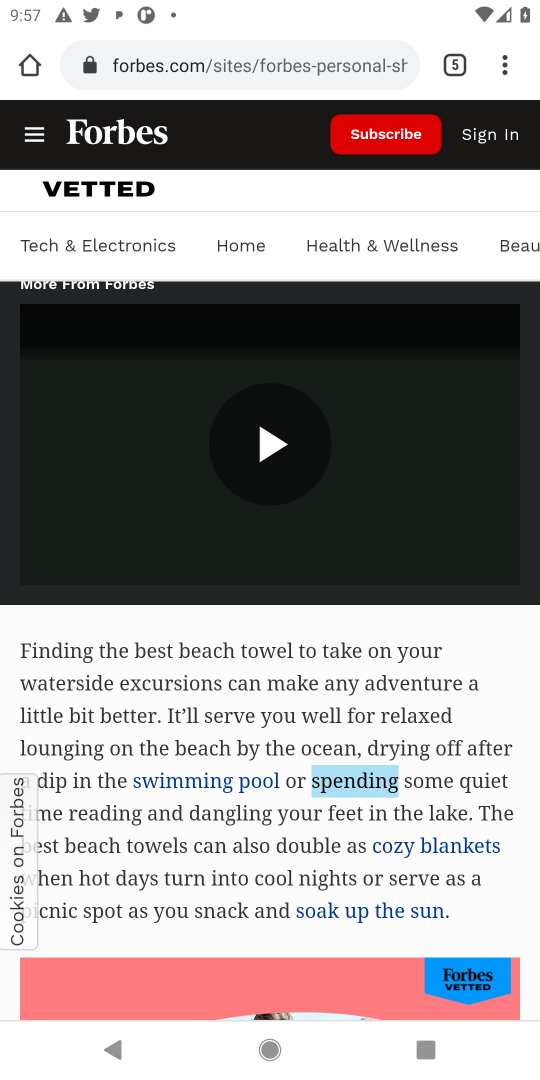
Step 54: drag from (349, 702) to (347, 442)
Your task to perform on an android device: Where can I buy a nice beach towel? Image 55: 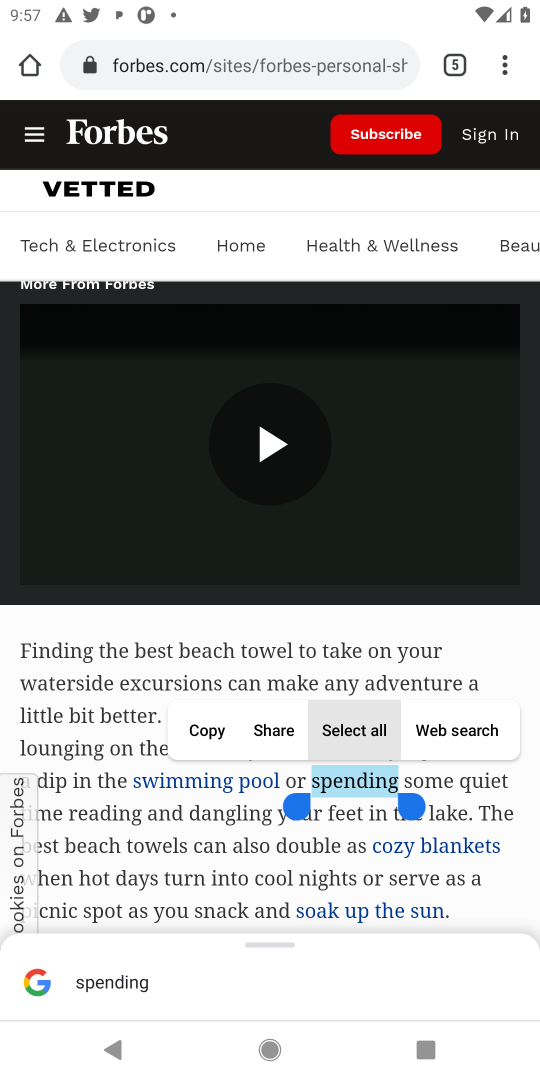
Step 55: drag from (387, 767) to (378, 460)
Your task to perform on an android device: Where can I buy a nice beach towel? Image 56: 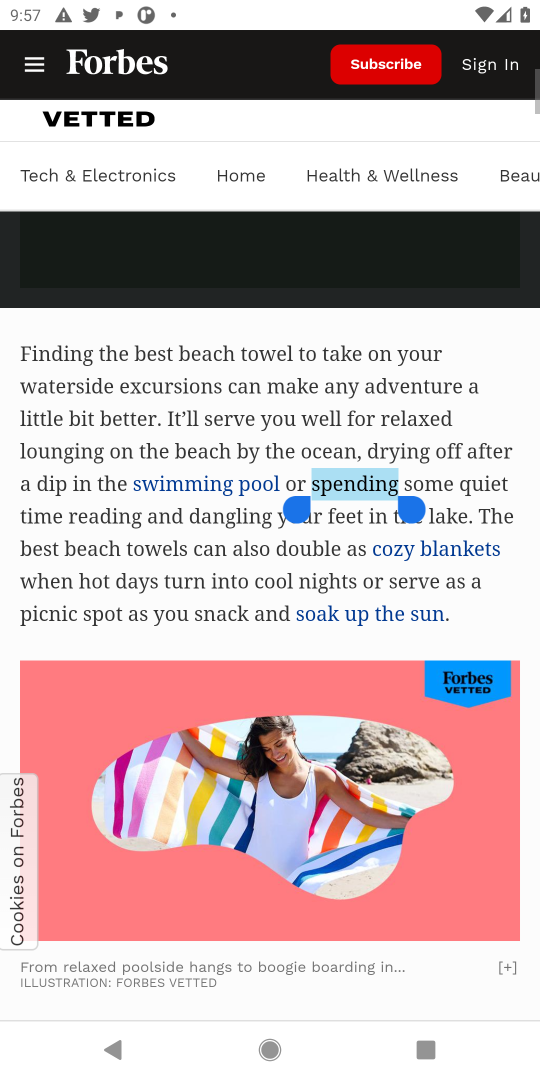
Step 56: click (190, 913)
Your task to perform on an android device: Where can I buy a nice beach towel? Image 57: 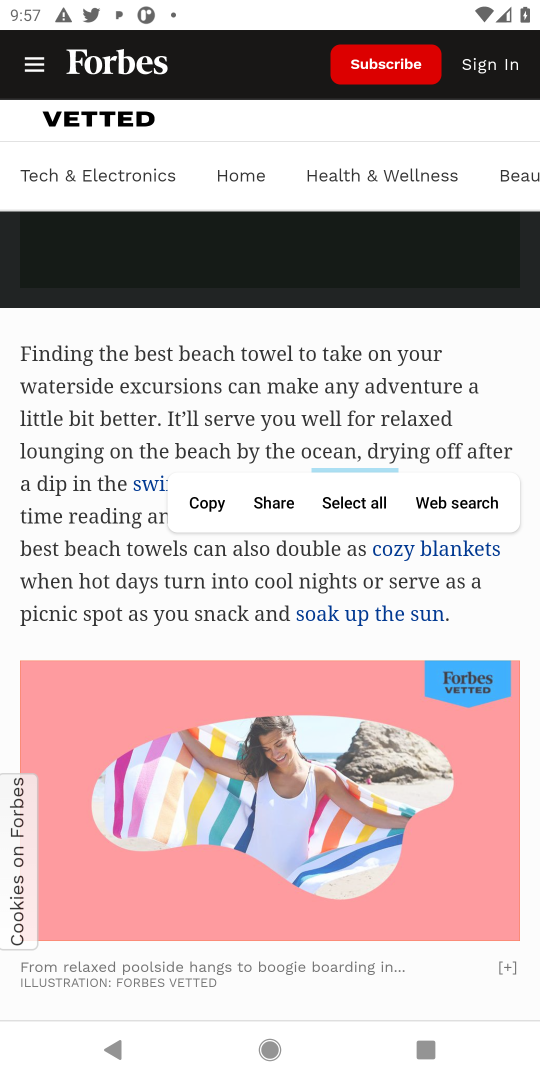
Step 57: task complete